Your task to perform on an android device: Clear all items from cart on costco.com. Search for macbook pro 13 inch on costco.com, select the first entry, add it to the cart, then select checkout. Image 0: 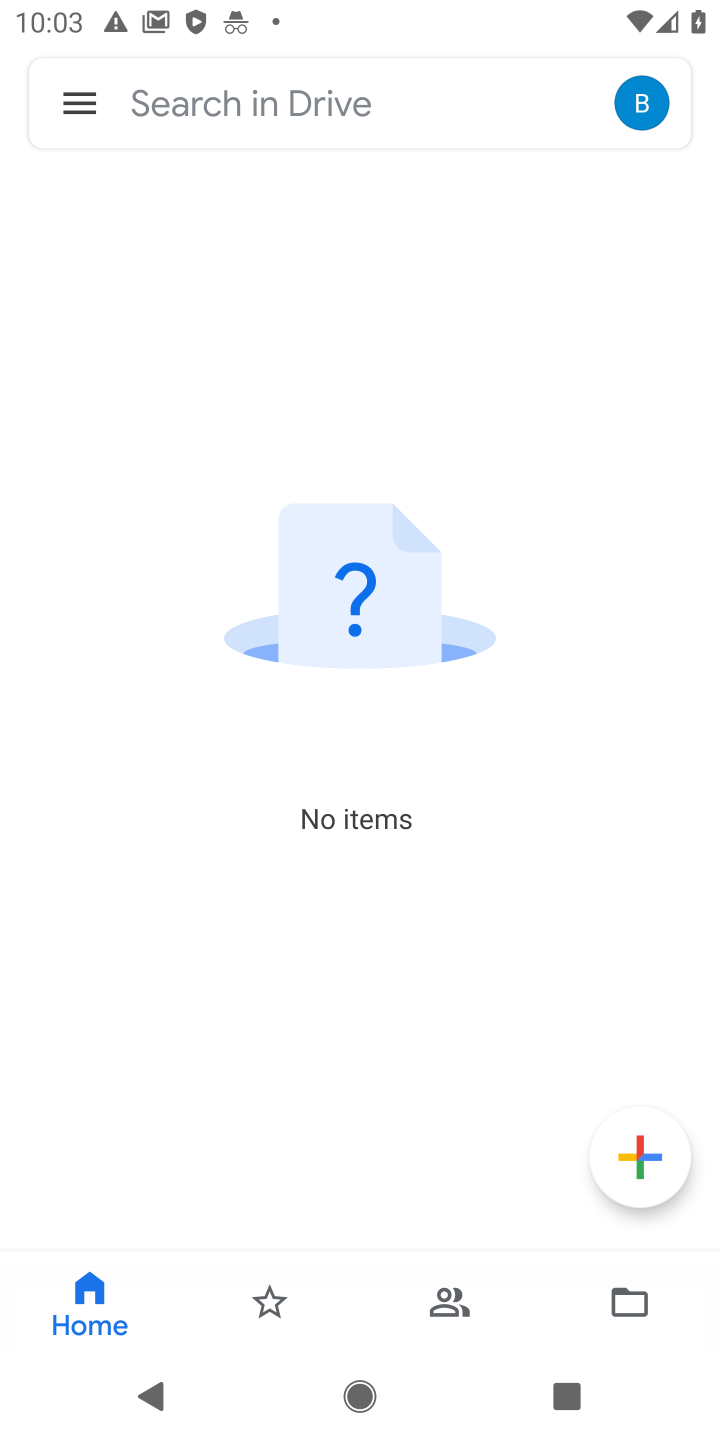
Step 0: press home button
Your task to perform on an android device: Clear all items from cart on costco.com. Search for macbook pro 13 inch on costco.com, select the first entry, add it to the cart, then select checkout. Image 1: 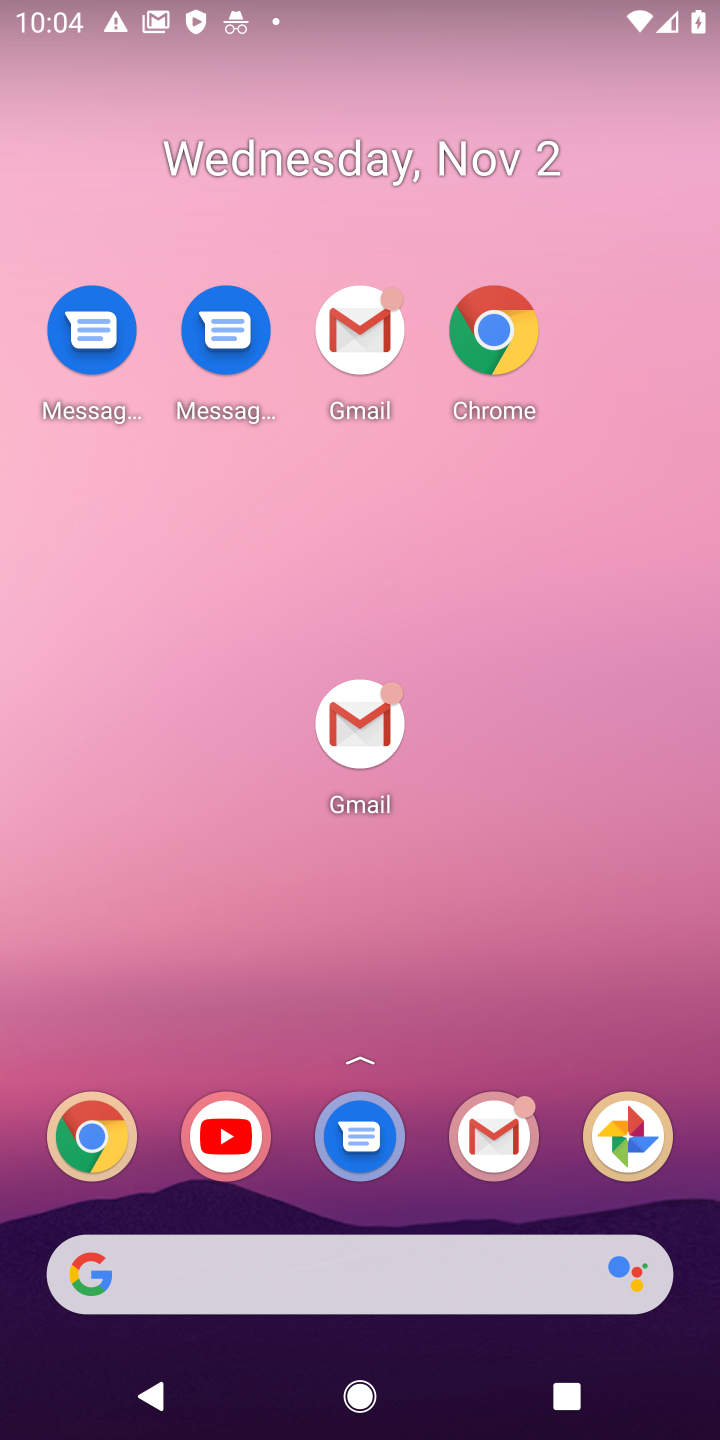
Step 1: drag from (200, 1280) to (230, 344)
Your task to perform on an android device: Clear all items from cart on costco.com. Search for macbook pro 13 inch on costco.com, select the first entry, add it to the cart, then select checkout. Image 2: 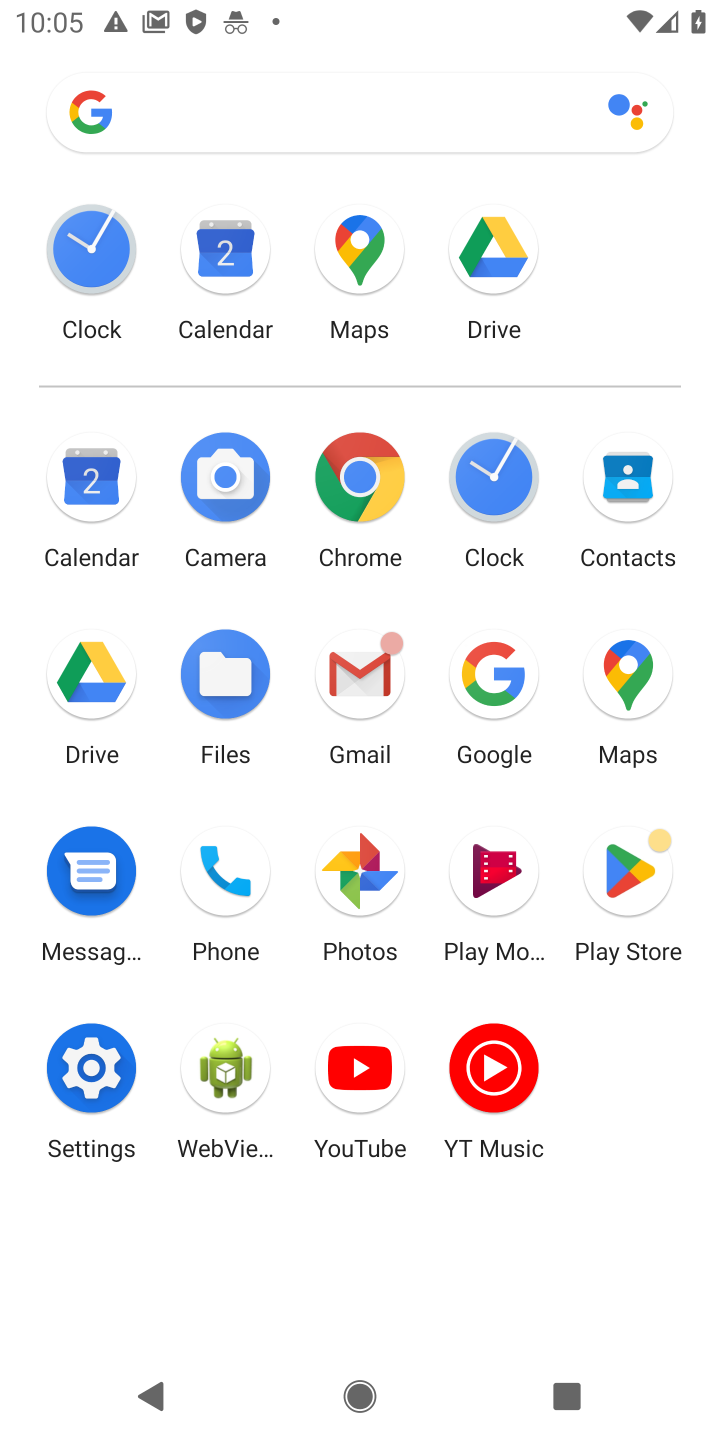
Step 2: click (476, 662)
Your task to perform on an android device: Clear all items from cart on costco.com. Search for macbook pro 13 inch on costco.com, select the first entry, add it to the cart, then select checkout. Image 3: 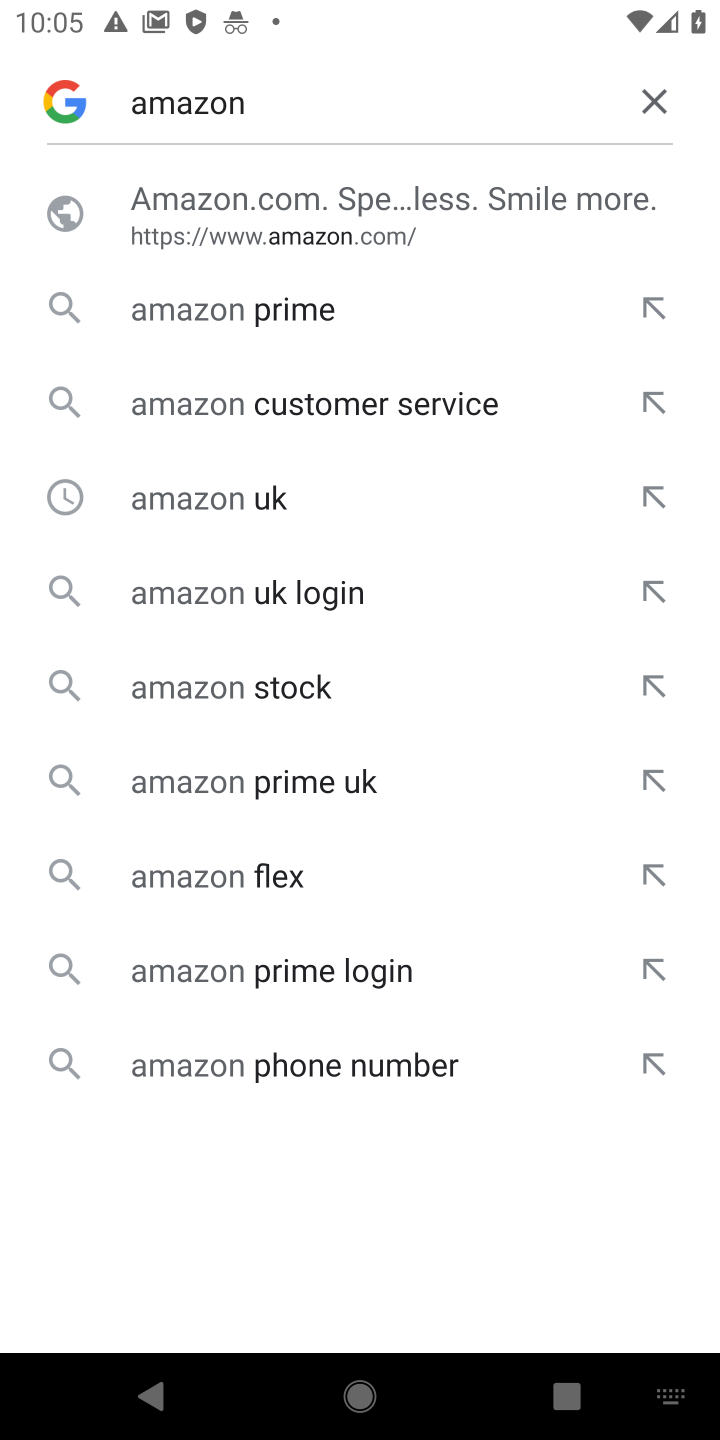
Step 3: click (651, 84)
Your task to perform on an android device: Clear all items from cart on costco.com. Search for macbook pro 13 inch on costco.com, select the first entry, add it to the cart, then select checkout. Image 4: 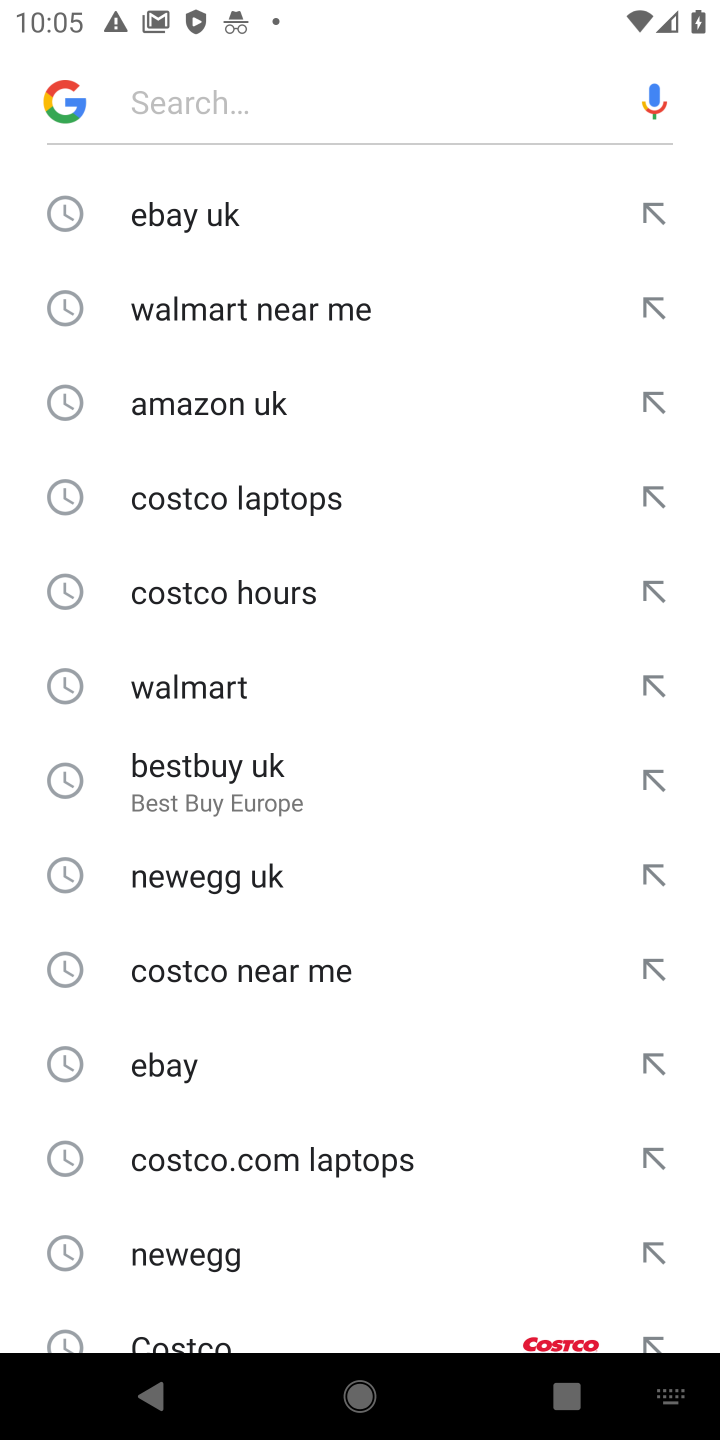
Step 4: click (256, 88)
Your task to perform on an android device: Clear all items from cart on costco.com. Search for macbook pro 13 inch on costco.com, select the first entry, add it to the cart, then select checkout. Image 5: 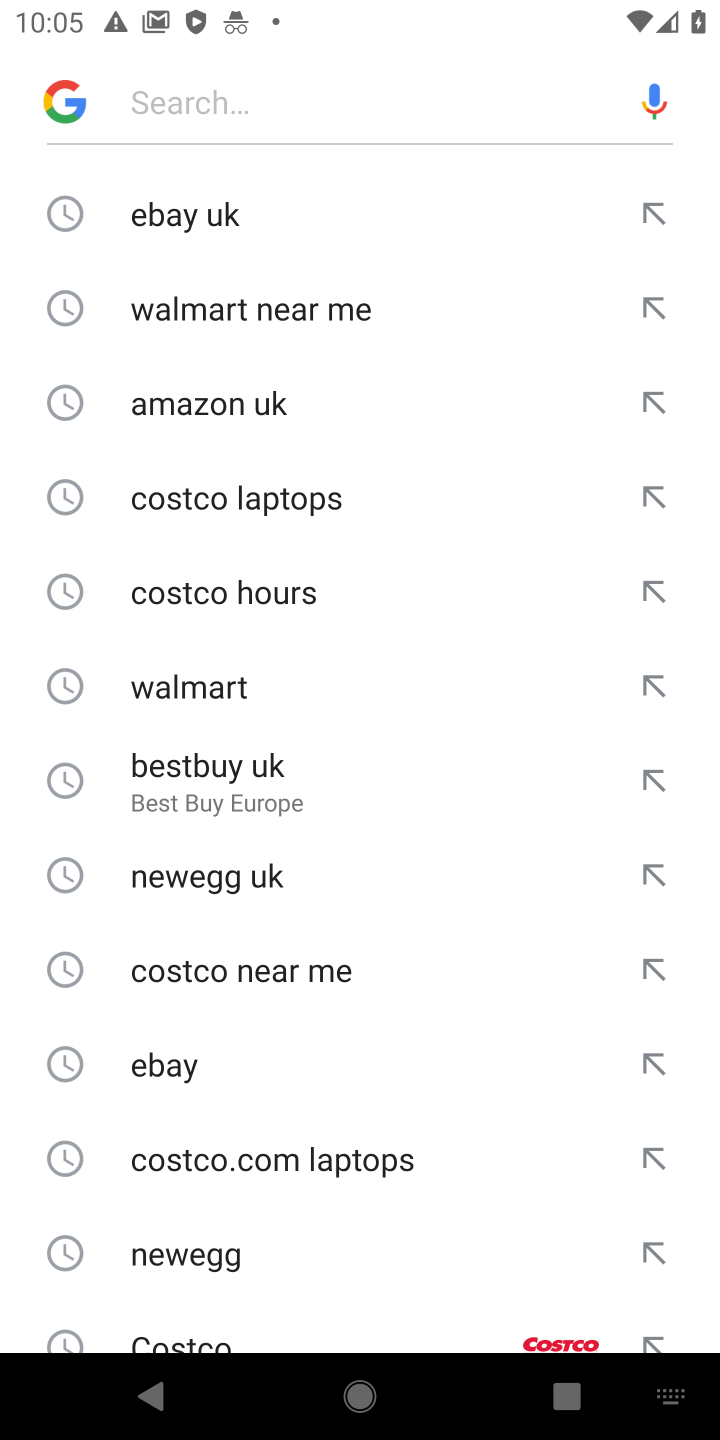
Step 5: type "costco "
Your task to perform on an android device: Clear all items from cart on costco.com. Search for macbook pro 13 inch on costco.com, select the first entry, add it to the cart, then select checkout. Image 6: 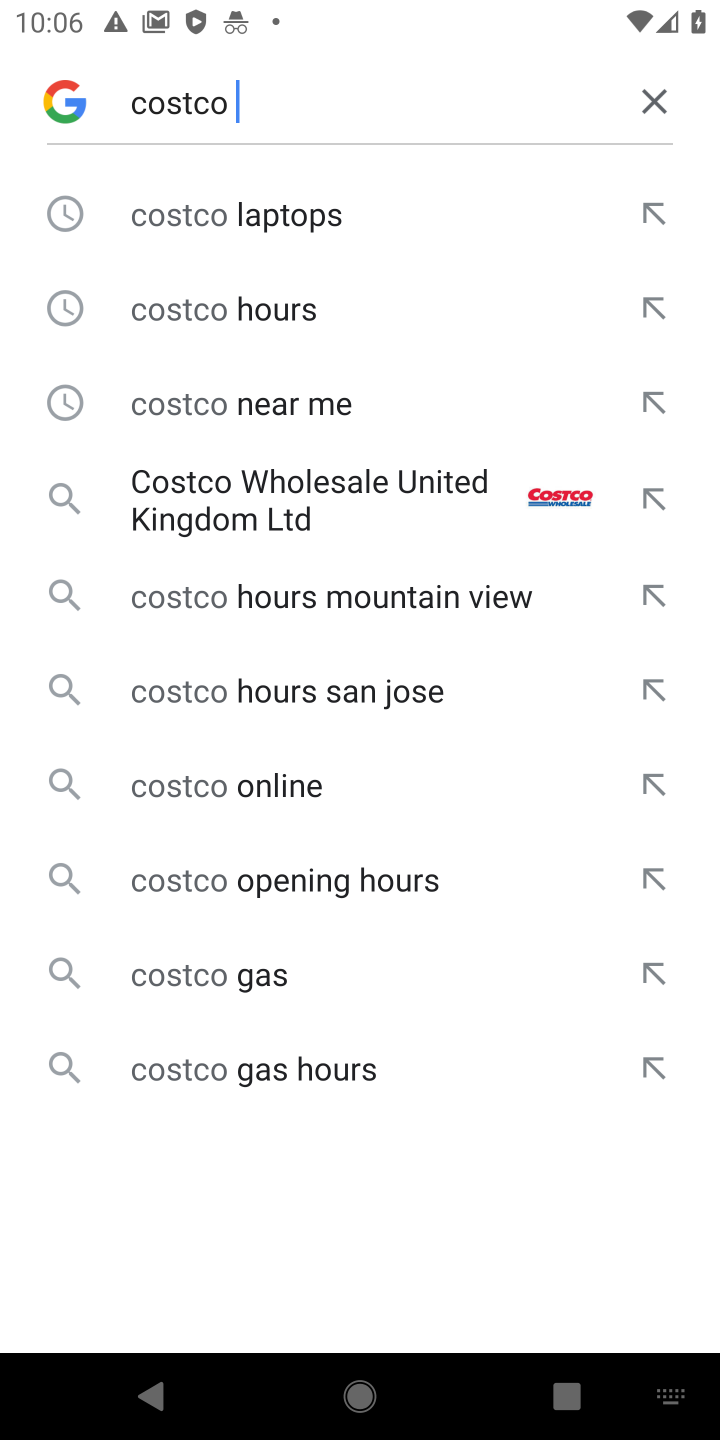
Step 6: click (281, 492)
Your task to perform on an android device: Clear all items from cart on costco.com. Search for macbook pro 13 inch on costco.com, select the first entry, add it to the cart, then select checkout. Image 7: 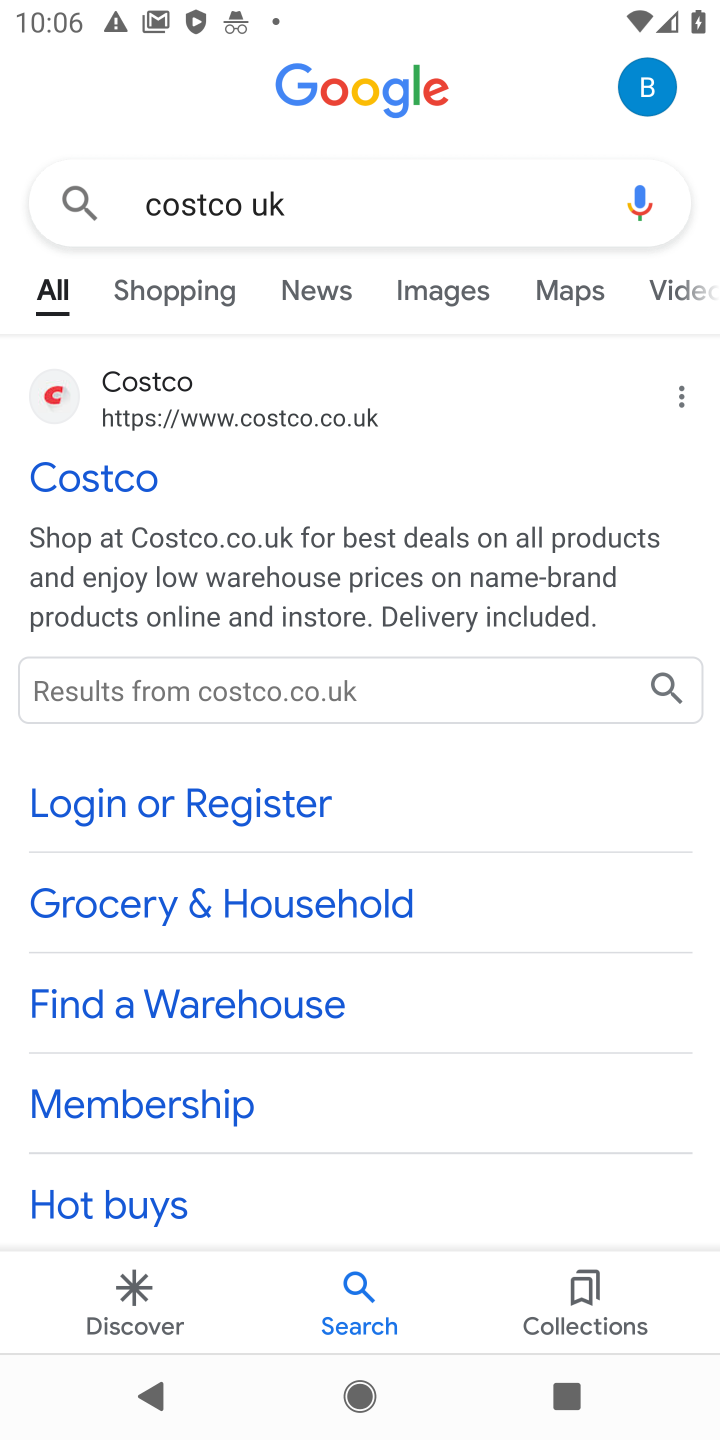
Step 7: click (59, 407)
Your task to perform on an android device: Clear all items from cart on costco.com. Search for macbook pro 13 inch on costco.com, select the first entry, add it to the cart, then select checkout. Image 8: 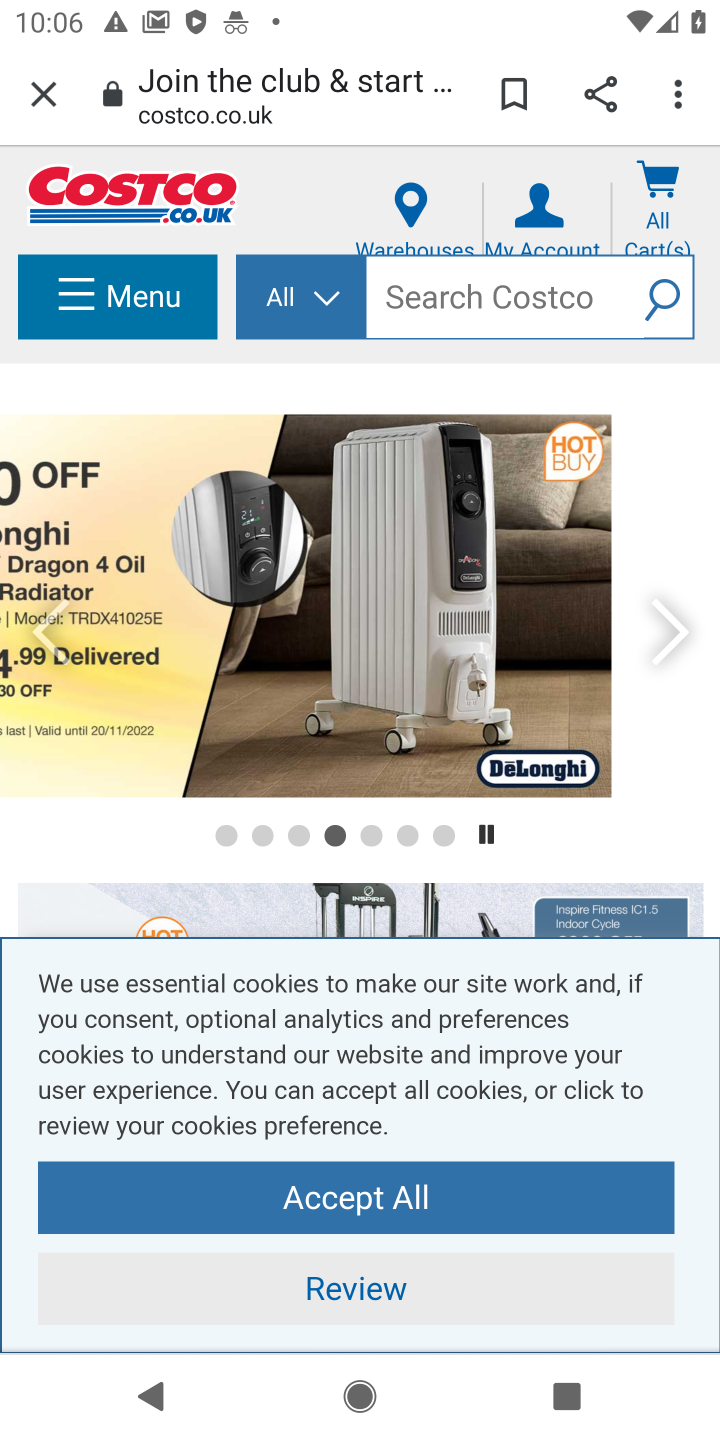
Step 8: click (484, 276)
Your task to perform on an android device: Clear all items from cart on costco.com. Search for macbook pro 13 inch on costco.com, select the first entry, add it to the cart, then select checkout. Image 9: 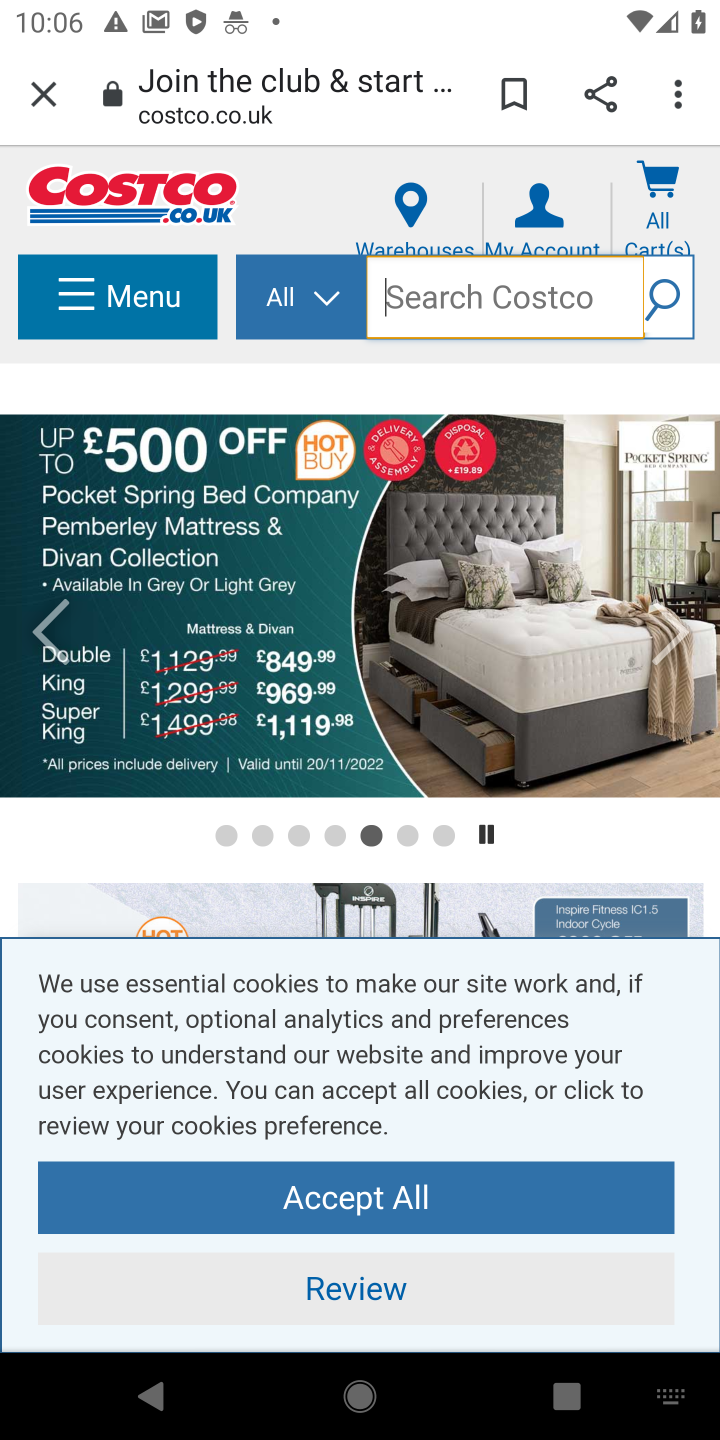
Step 9: click (390, 1197)
Your task to perform on an android device: Clear all items from cart on costco.com. Search for macbook pro 13 inch on costco.com, select the first entry, add it to the cart, then select checkout. Image 10: 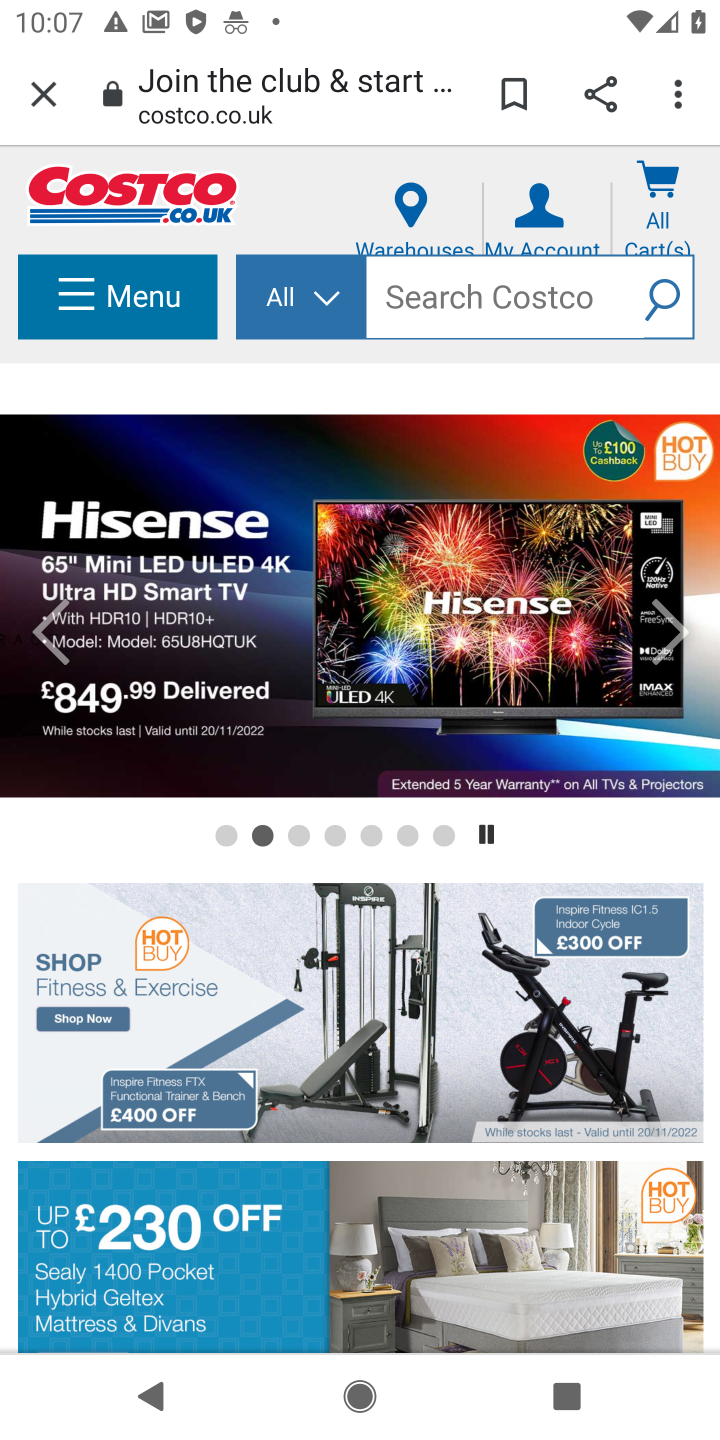
Step 10: click (430, 275)
Your task to perform on an android device: Clear all items from cart on costco.com. Search for macbook pro 13 inch on costco.com, select the first entry, add it to the cart, then select checkout. Image 11: 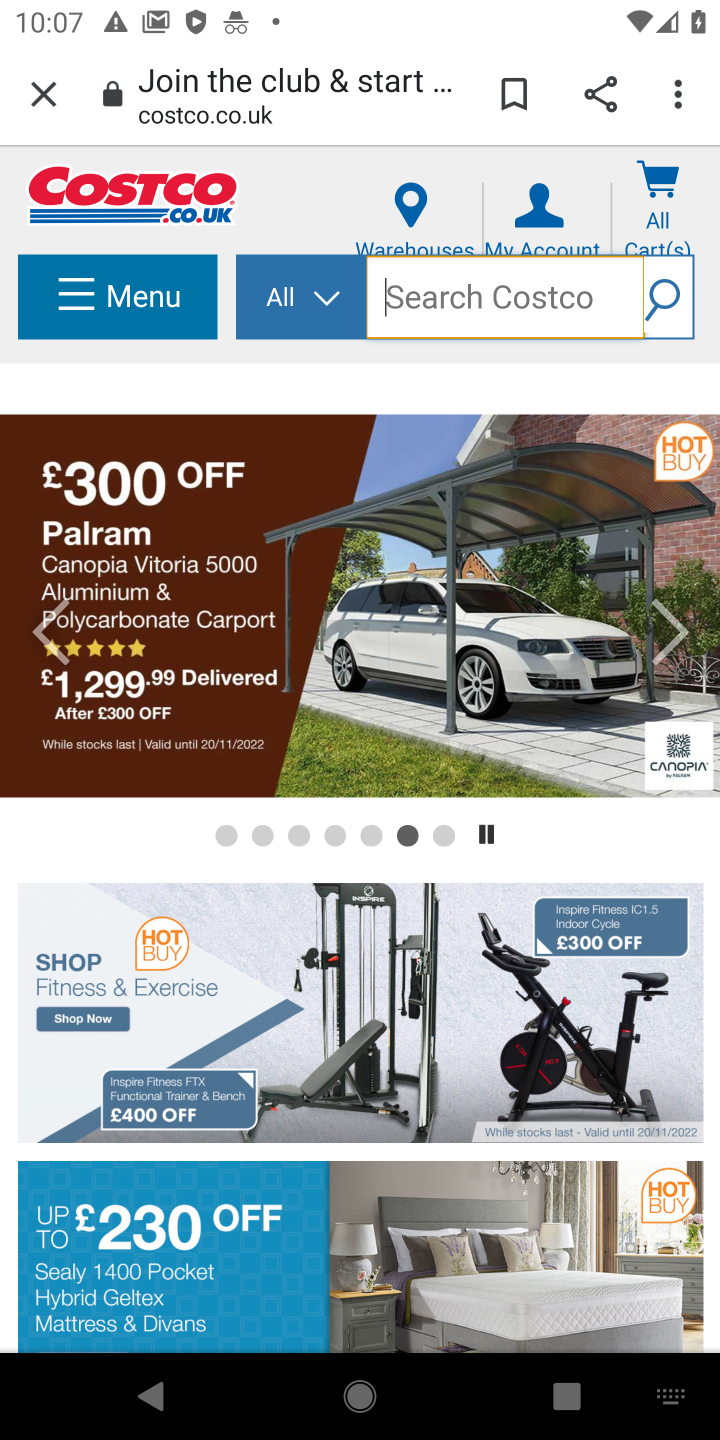
Step 11: click (478, 287)
Your task to perform on an android device: Clear all items from cart on costco.com. Search for macbook pro 13 inch on costco.com, select the first entry, add it to the cart, then select checkout. Image 12: 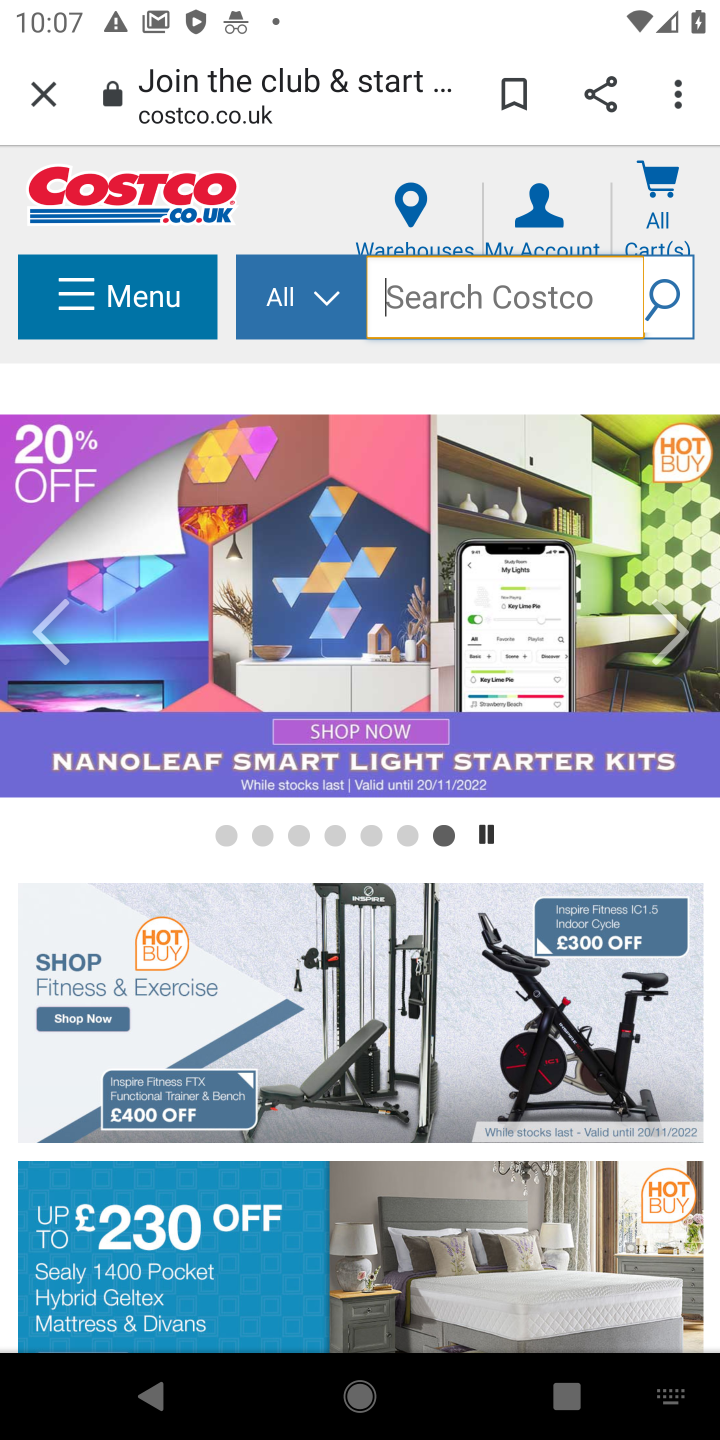
Step 12: type " macbook pro 13 inch  "
Your task to perform on an android device: Clear all items from cart on costco.com. Search for macbook pro 13 inch on costco.com, select the first entry, add it to the cart, then select checkout. Image 13: 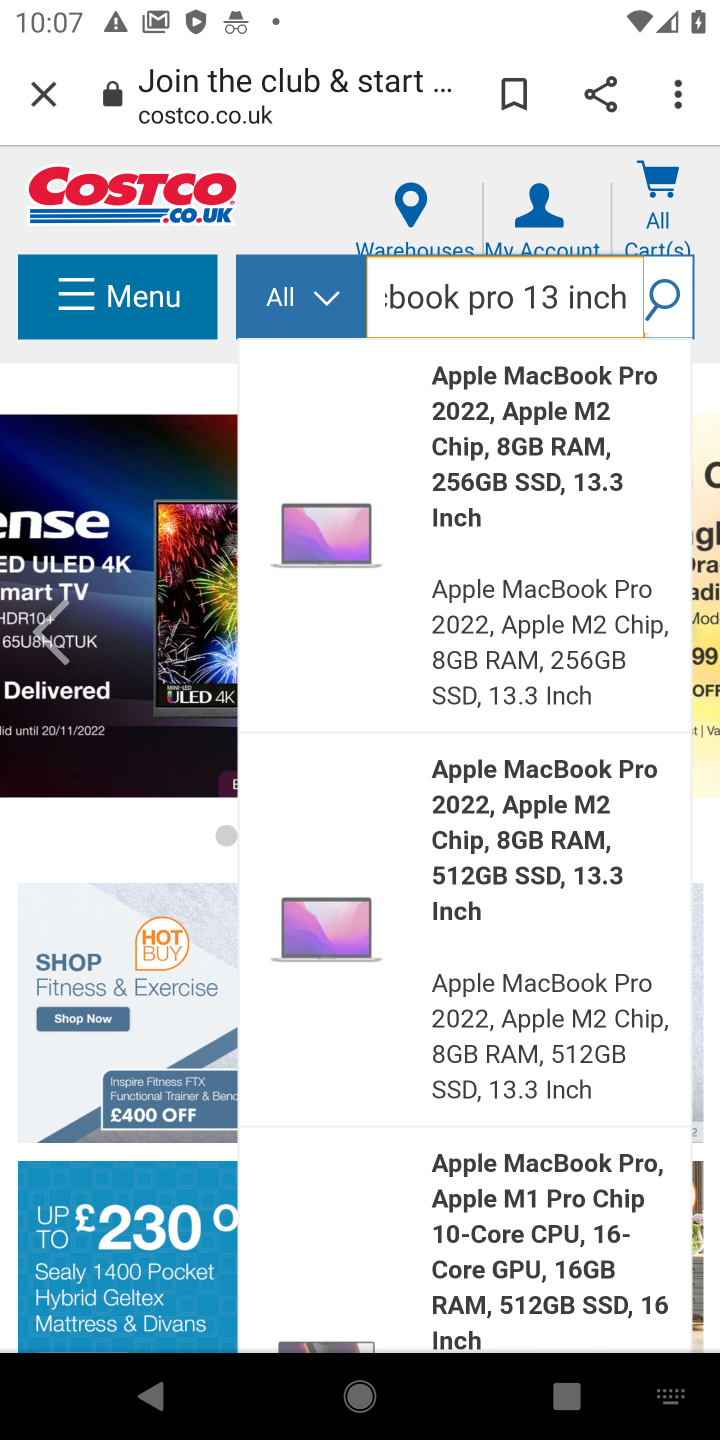
Step 13: click (505, 447)
Your task to perform on an android device: Clear all items from cart on costco.com. Search for macbook pro 13 inch on costco.com, select the first entry, add it to the cart, then select checkout. Image 14: 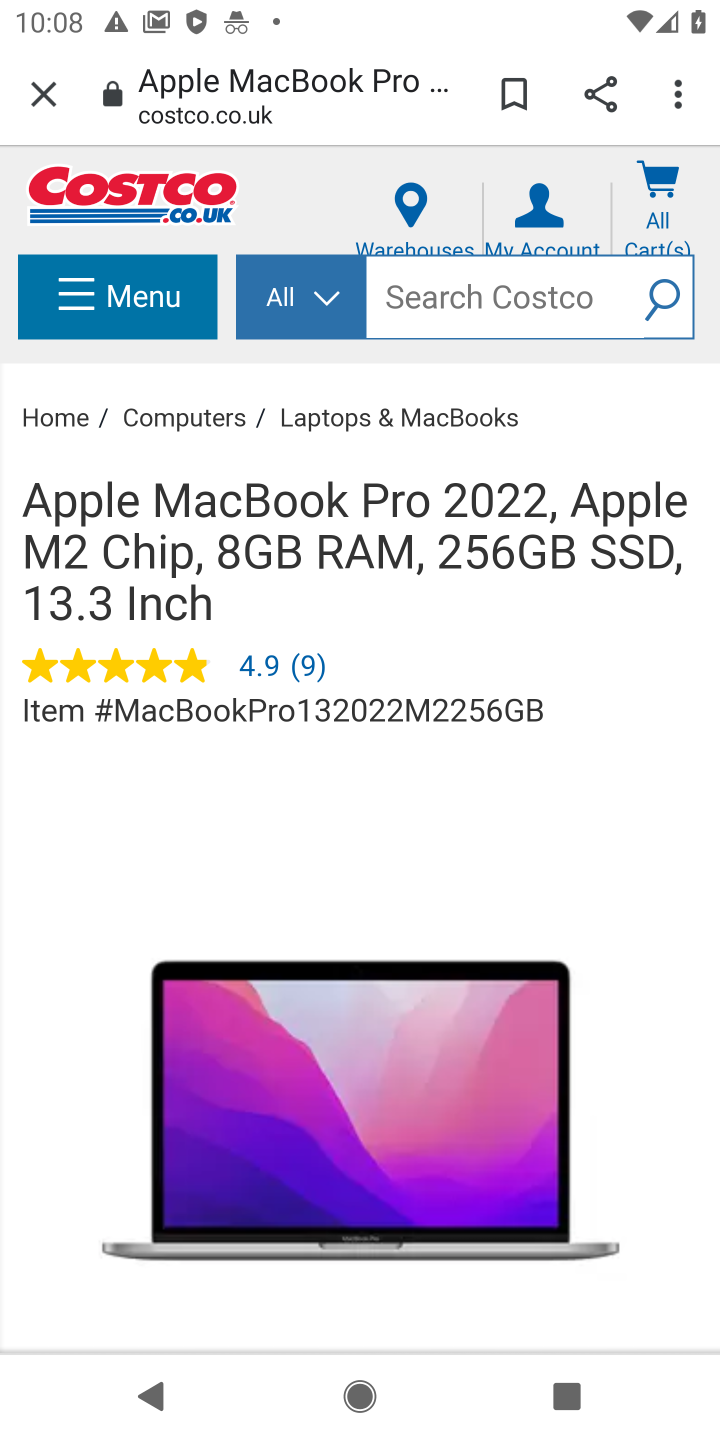
Step 14: drag from (338, 1133) to (388, 656)
Your task to perform on an android device: Clear all items from cart on costco.com. Search for macbook pro 13 inch on costco.com, select the first entry, add it to the cart, then select checkout. Image 15: 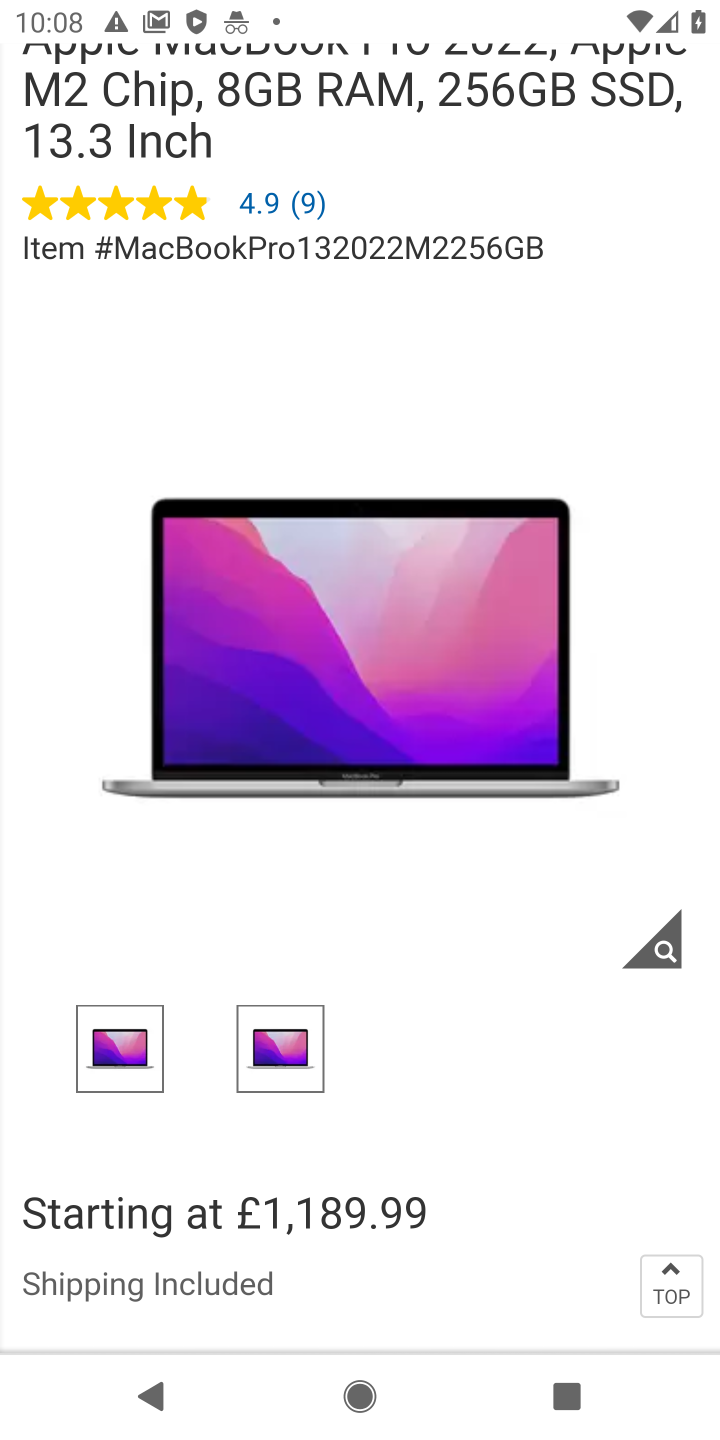
Step 15: drag from (412, 876) to (434, 396)
Your task to perform on an android device: Clear all items from cart on costco.com. Search for macbook pro 13 inch on costco.com, select the first entry, add it to the cart, then select checkout. Image 16: 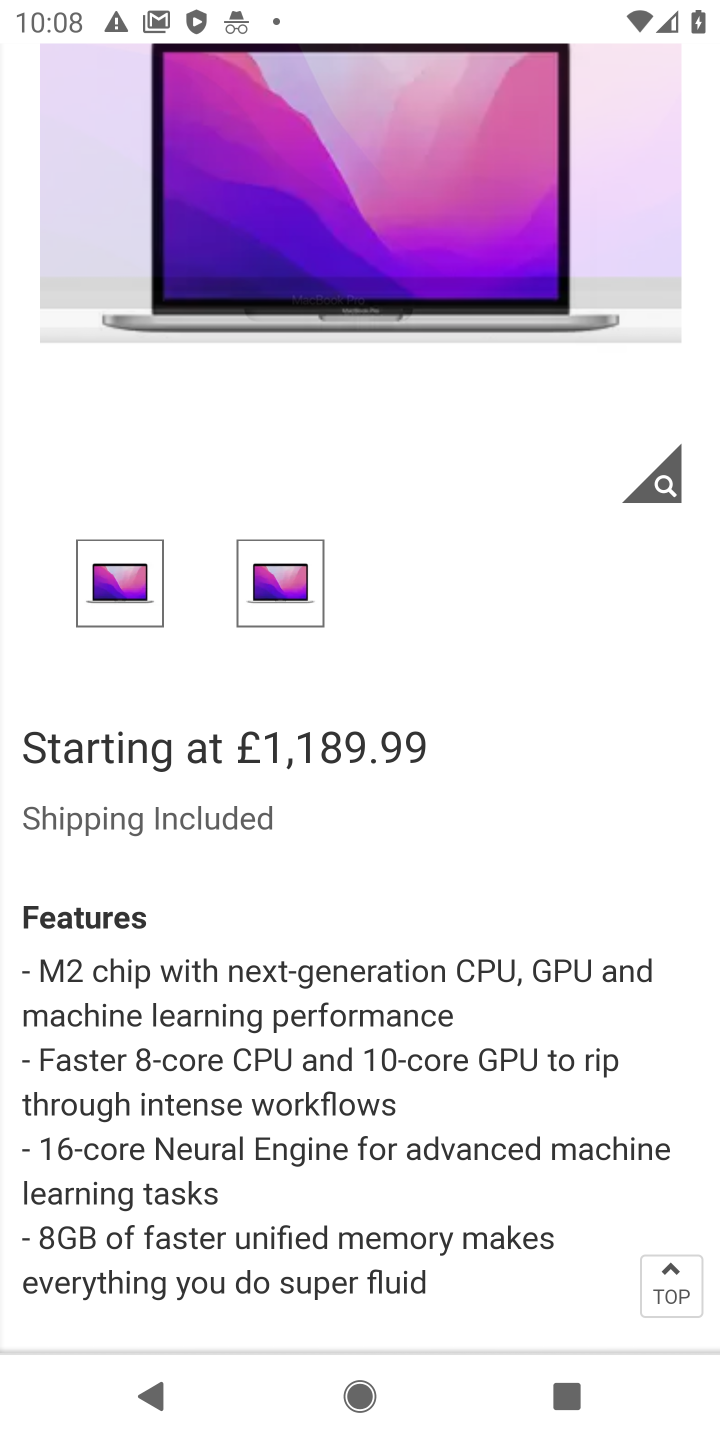
Step 16: drag from (369, 1033) to (455, 272)
Your task to perform on an android device: Clear all items from cart on costco.com. Search for macbook pro 13 inch on costco.com, select the first entry, add it to the cart, then select checkout. Image 17: 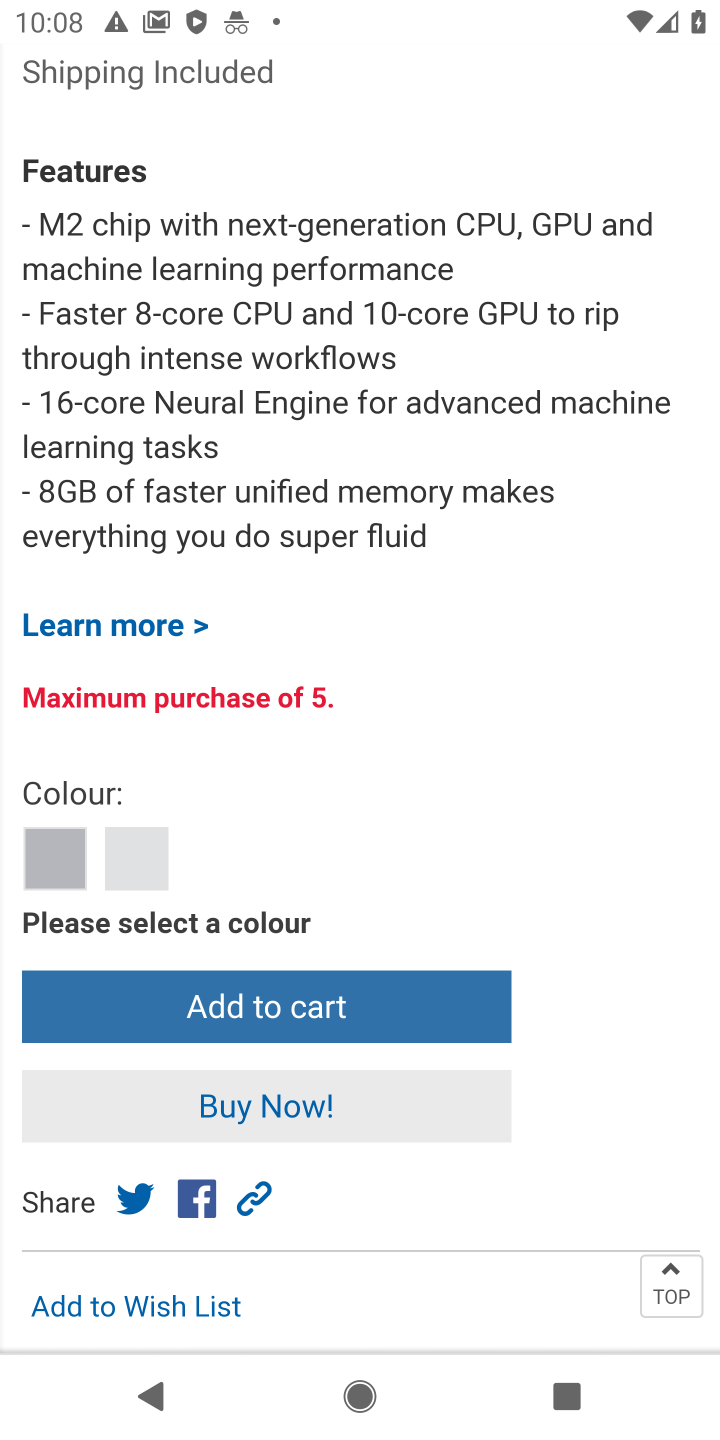
Step 17: drag from (298, 1100) to (392, 527)
Your task to perform on an android device: Clear all items from cart on costco.com. Search for macbook pro 13 inch on costco.com, select the first entry, add it to the cart, then select checkout. Image 18: 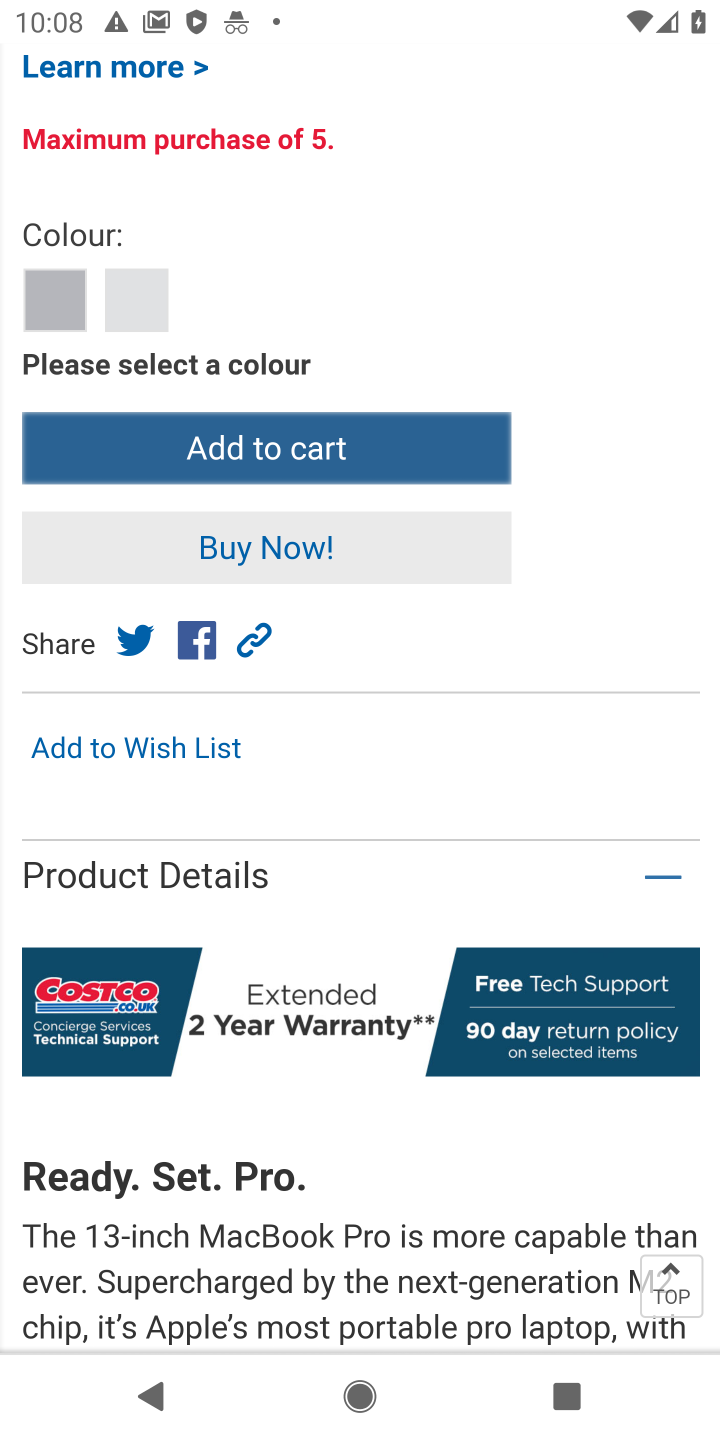
Step 18: click (272, 442)
Your task to perform on an android device: Clear all items from cart on costco.com. Search for macbook pro 13 inch on costco.com, select the first entry, add it to the cart, then select checkout. Image 19: 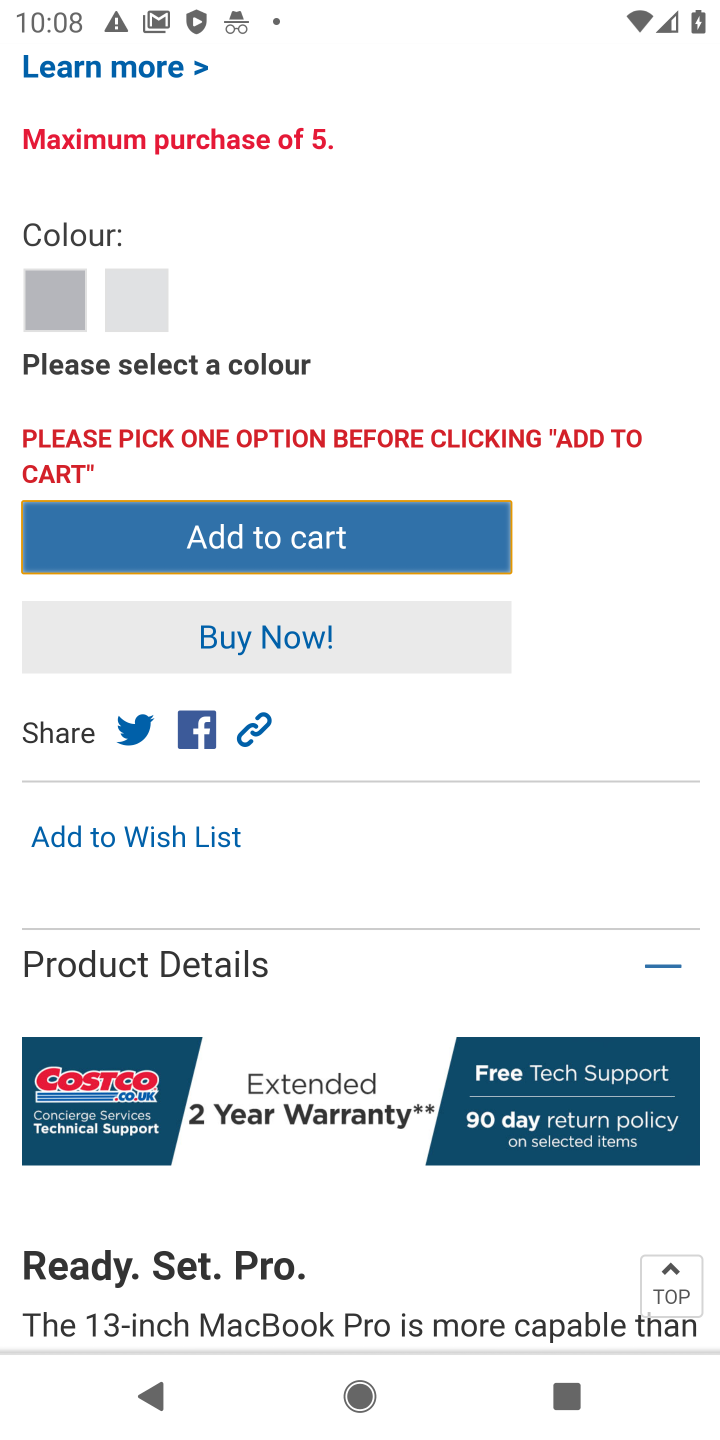
Step 19: click (162, 497)
Your task to perform on an android device: Clear all items from cart on costco.com. Search for macbook pro 13 inch on costco.com, select the first entry, add it to the cart, then select checkout. Image 20: 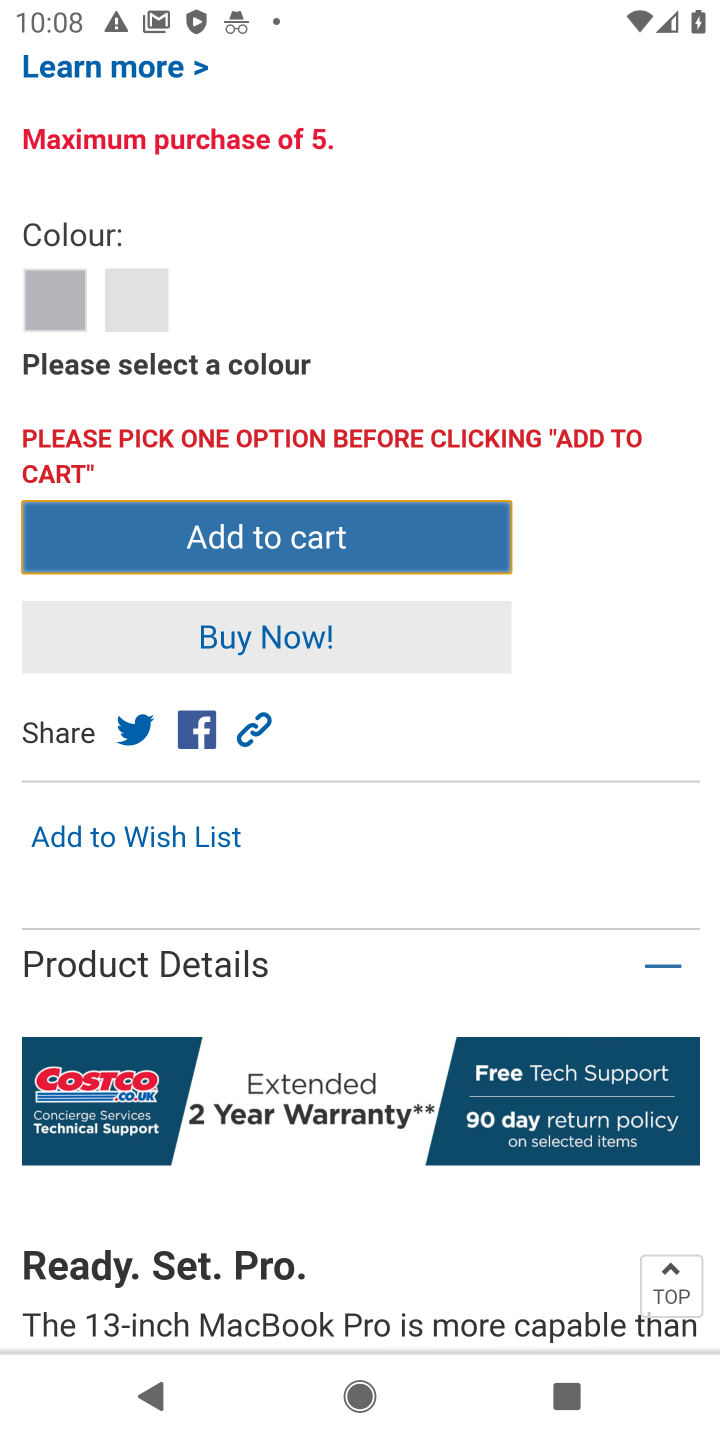
Step 20: click (184, 545)
Your task to perform on an android device: Clear all items from cart on costco.com. Search for macbook pro 13 inch on costco.com, select the first entry, add it to the cart, then select checkout. Image 21: 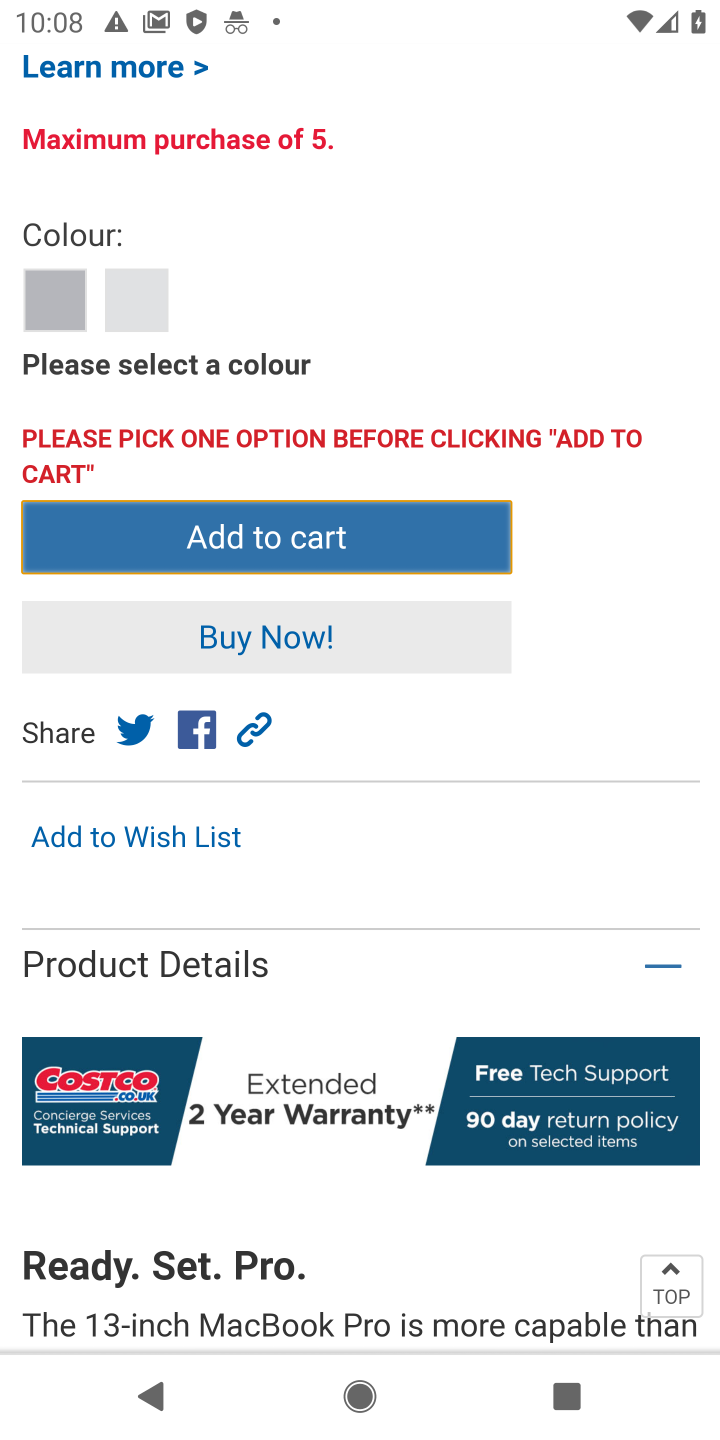
Step 21: click (242, 509)
Your task to perform on an android device: Clear all items from cart on costco.com. Search for macbook pro 13 inch on costco.com, select the first entry, add it to the cart, then select checkout. Image 22: 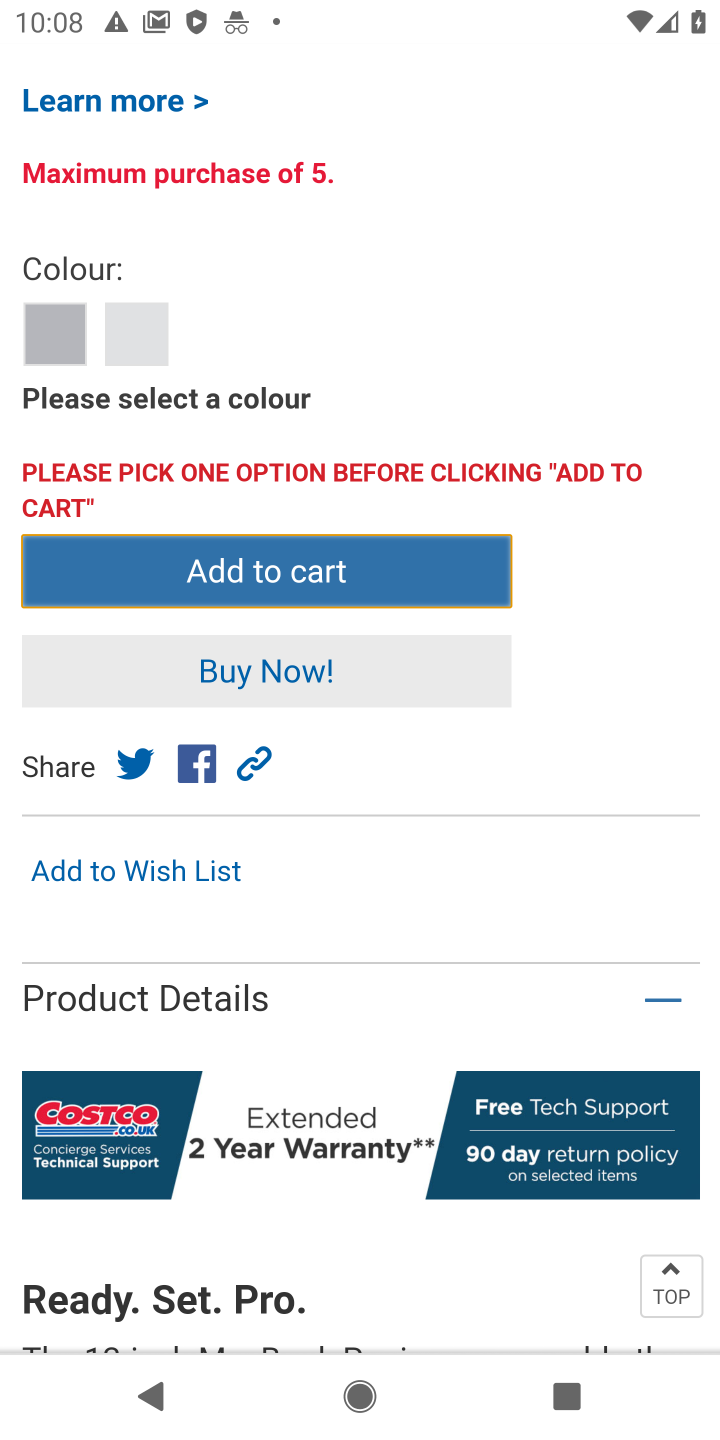
Step 22: drag from (416, 395) to (409, 668)
Your task to perform on an android device: Clear all items from cart on costco.com. Search for macbook pro 13 inch on costco.com, select the first entry, add it to the cart, then select checkout. Image 23: 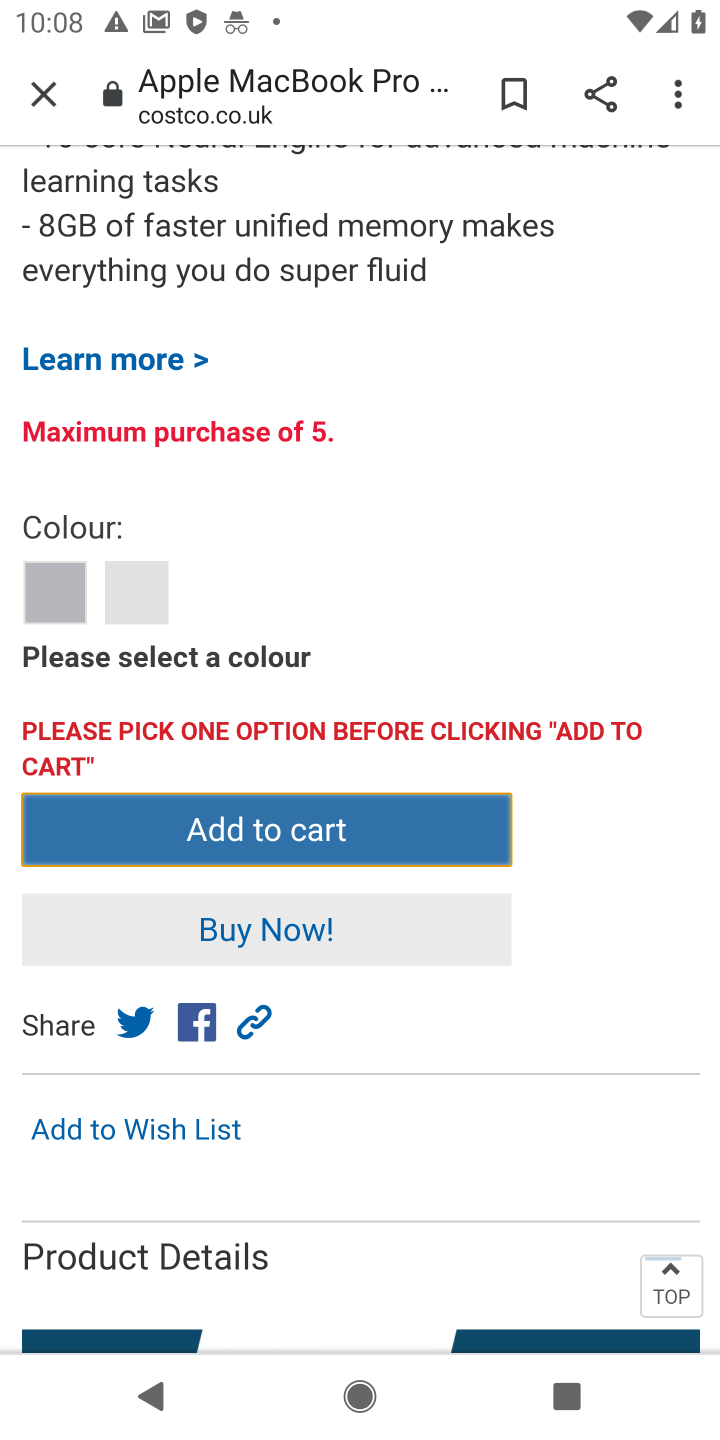
Step 23: click (268, 819)
Your task to perform on an android device: Clear all items from cart on costco.com. Search for macbook pro 13 inch on costco.com, select the first entry, add it to the cart, then select checkout. Image 24: 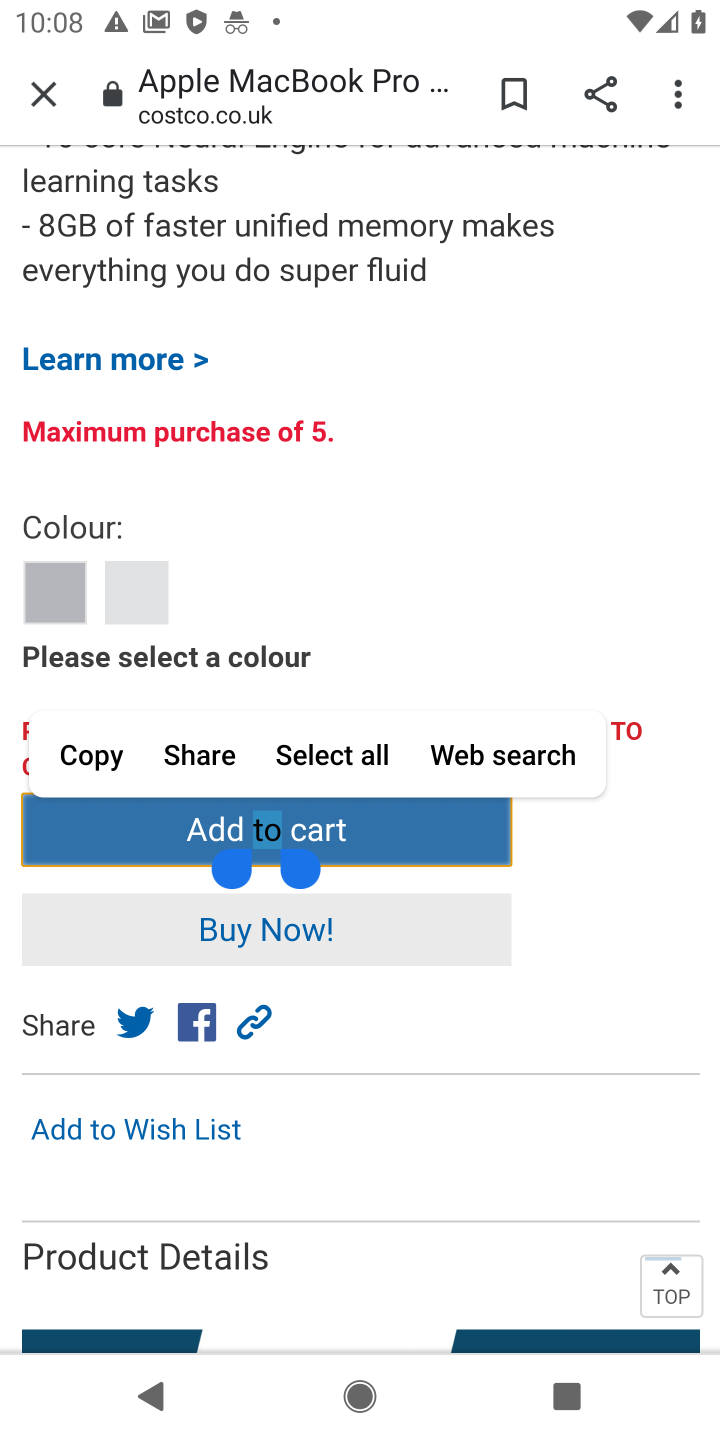
Step 24: click (268, 819)
Your task to perform on an android device: Clear all items from cart on costco.com. Search for macbook pro 13 inch on costco.com, select the first entry, add it to the cart, then select checkout. Image 25: 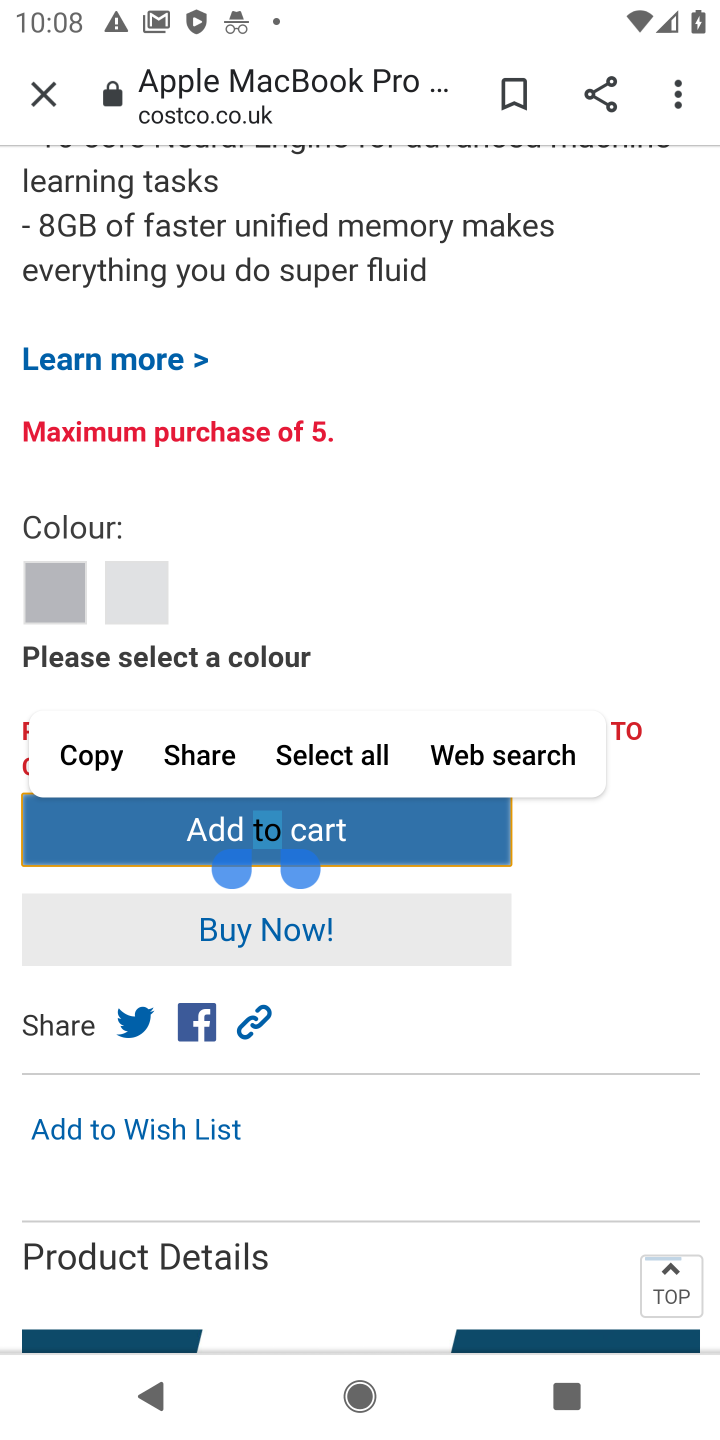
Step 25: click (433, 836)
Your task to perform on an android device: Clear all items from cart on costco.com. Search for macbook pro 13 inch on costco.com, select the first entry, add it to the cart, then select checkout. Image 26: 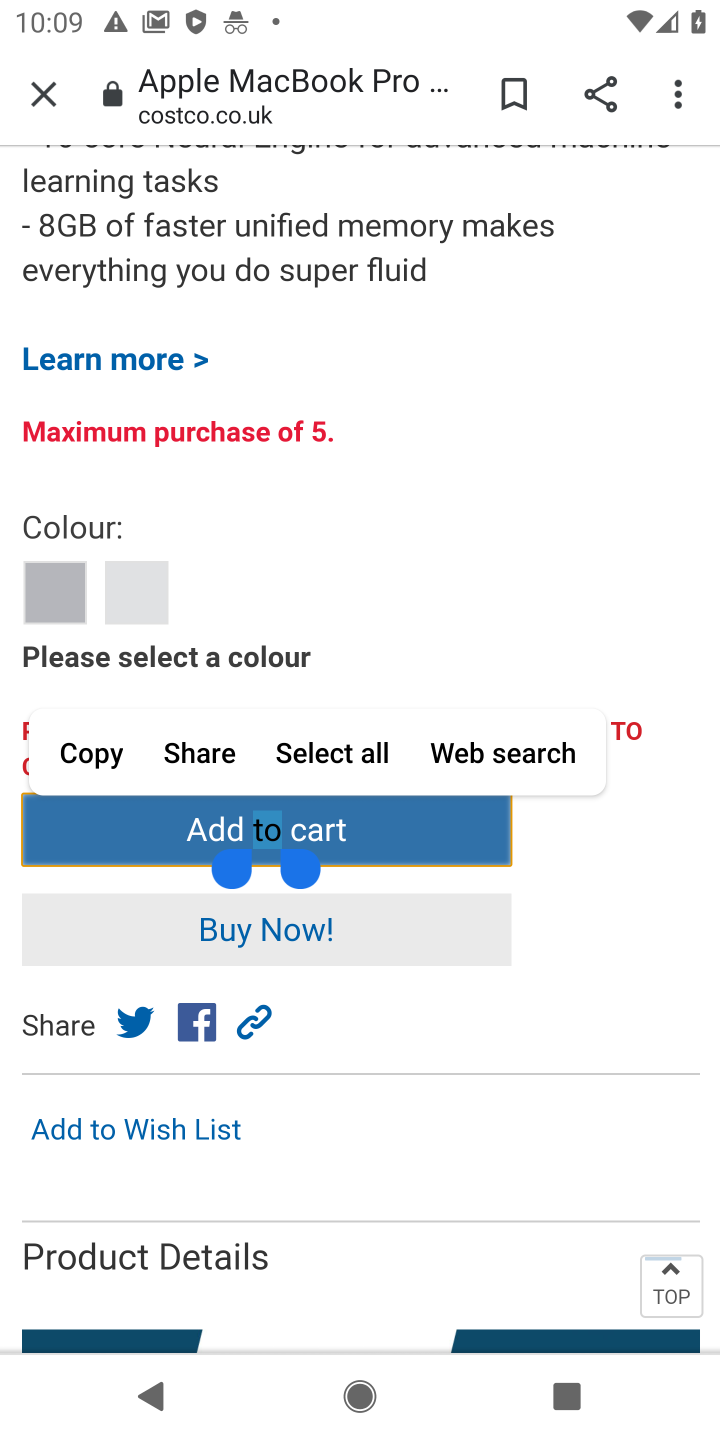
Step 26: click (433, 836)
Your task to perform on an android device: Clear all items from cart on costco.com. Search for macbook pro 13 inch on costco.com, select the first entry, add it to the cart, then select checkout. Image 27: 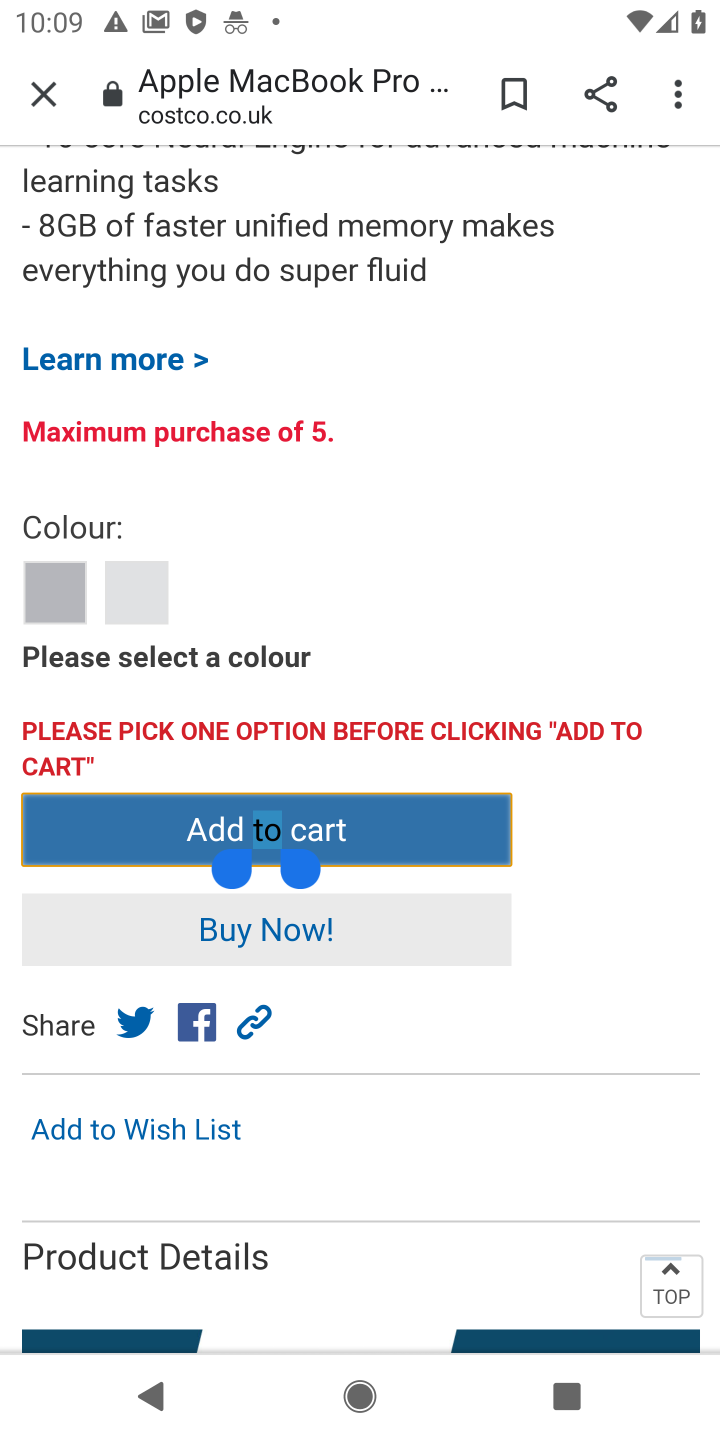
Step 27: drag from (438, 341) to (446, 744)
Your task to perform on an android device: Clear all items from cart on costco.com. Search for macbook pro 13 inch on costco.com, select the first entry, add it to the cart, then select checkout. Image 28: 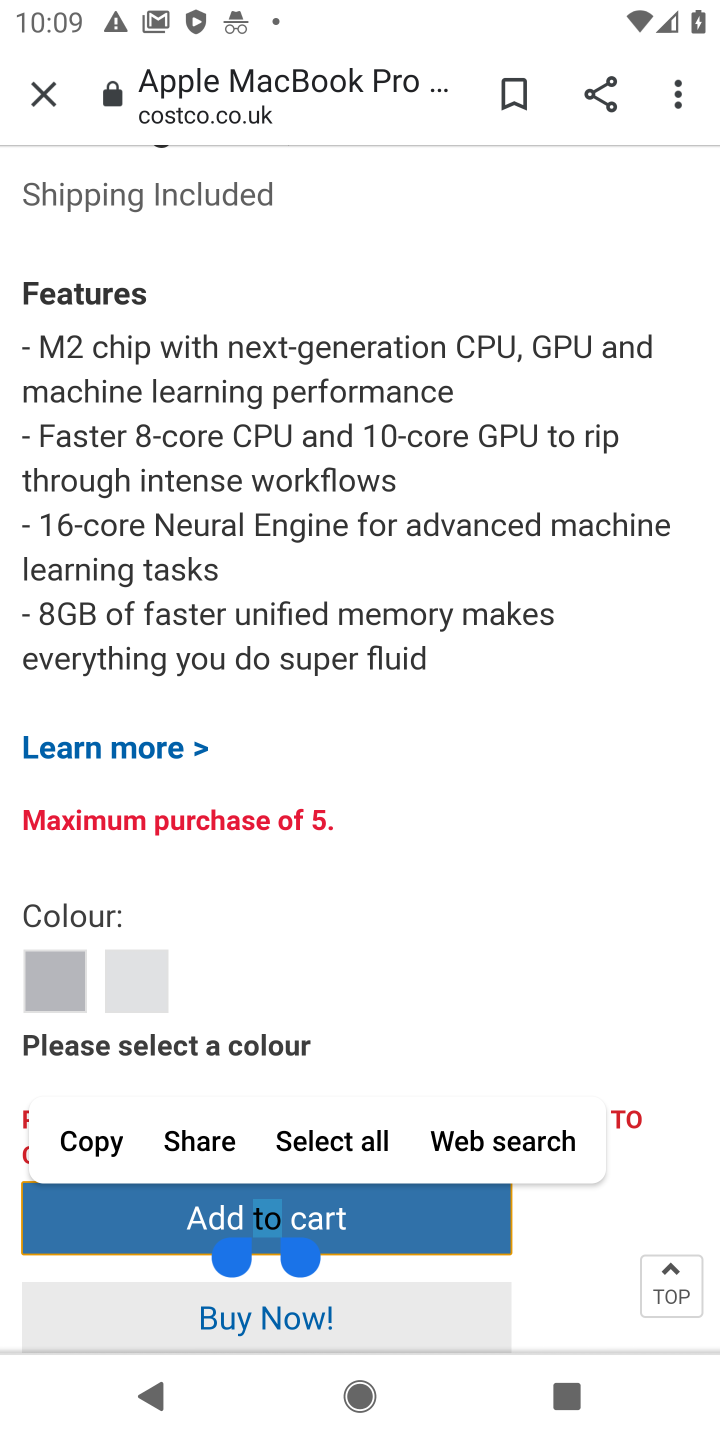
Step 28: click (463, 969)
Your task to perform on an android device: Clear all items from cart on costco.com. Search for macbook pro 13 inch on costco.com, select the first entry, add it to the cart, then select checkout. Image 29: 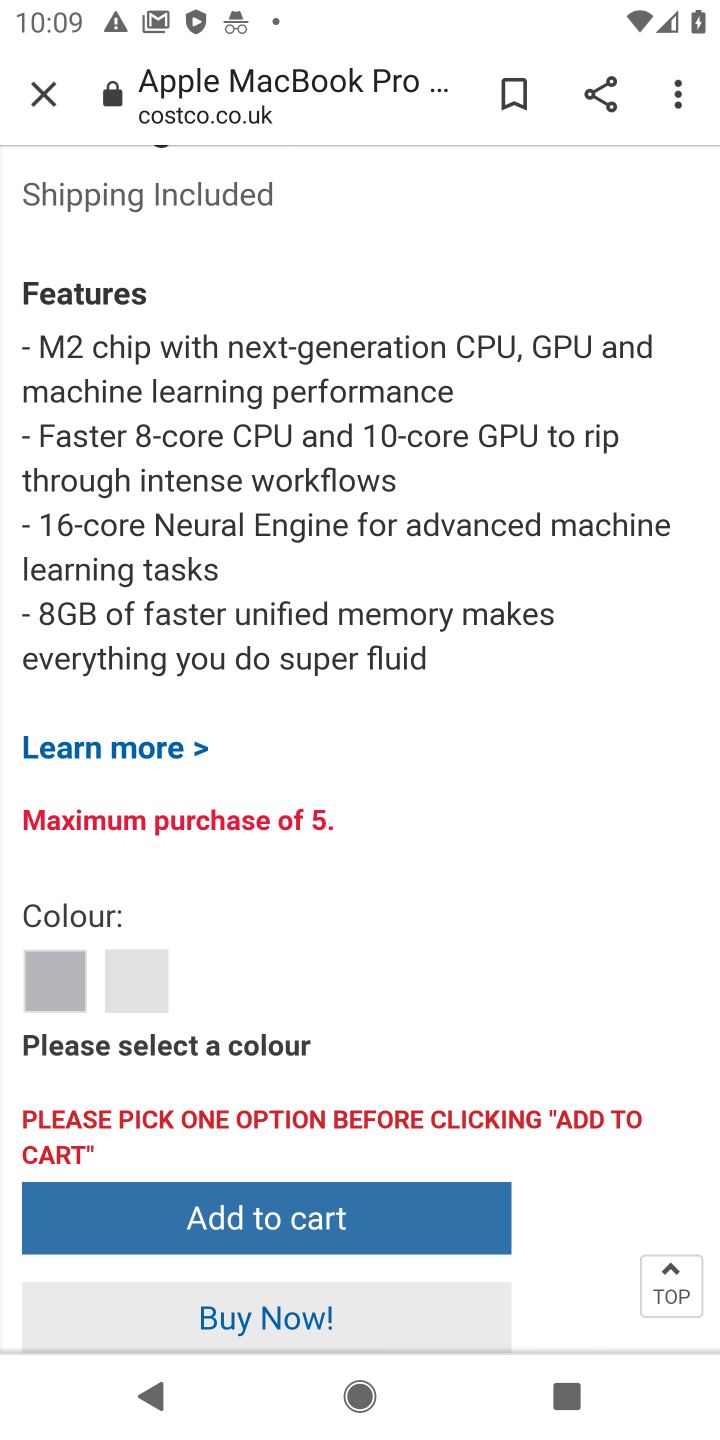
Step 29: click (463, 969)
Your task to perform on an android device: Clear all items from cart on costco.com. Search for macbook pro 13 inch on costco.com, select the first entry, add it to the cart, then select checkout. Image 30: 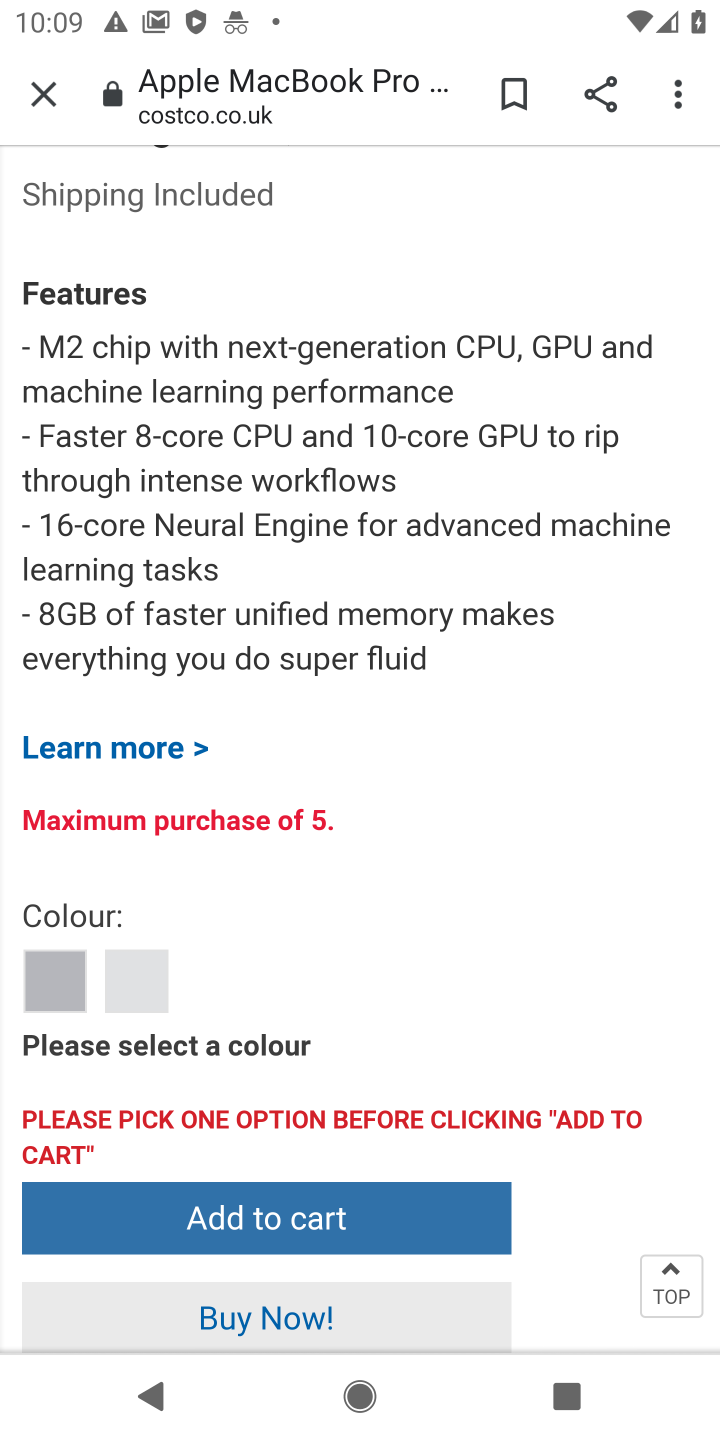
Step 30: click (381, 1215)
Your task to perform on an android device: Clear all items from cart on costco.com. Search for macbook pro 13 inch on costco.com, select the first entry, add it to the cart, then select checkout. Image 31: 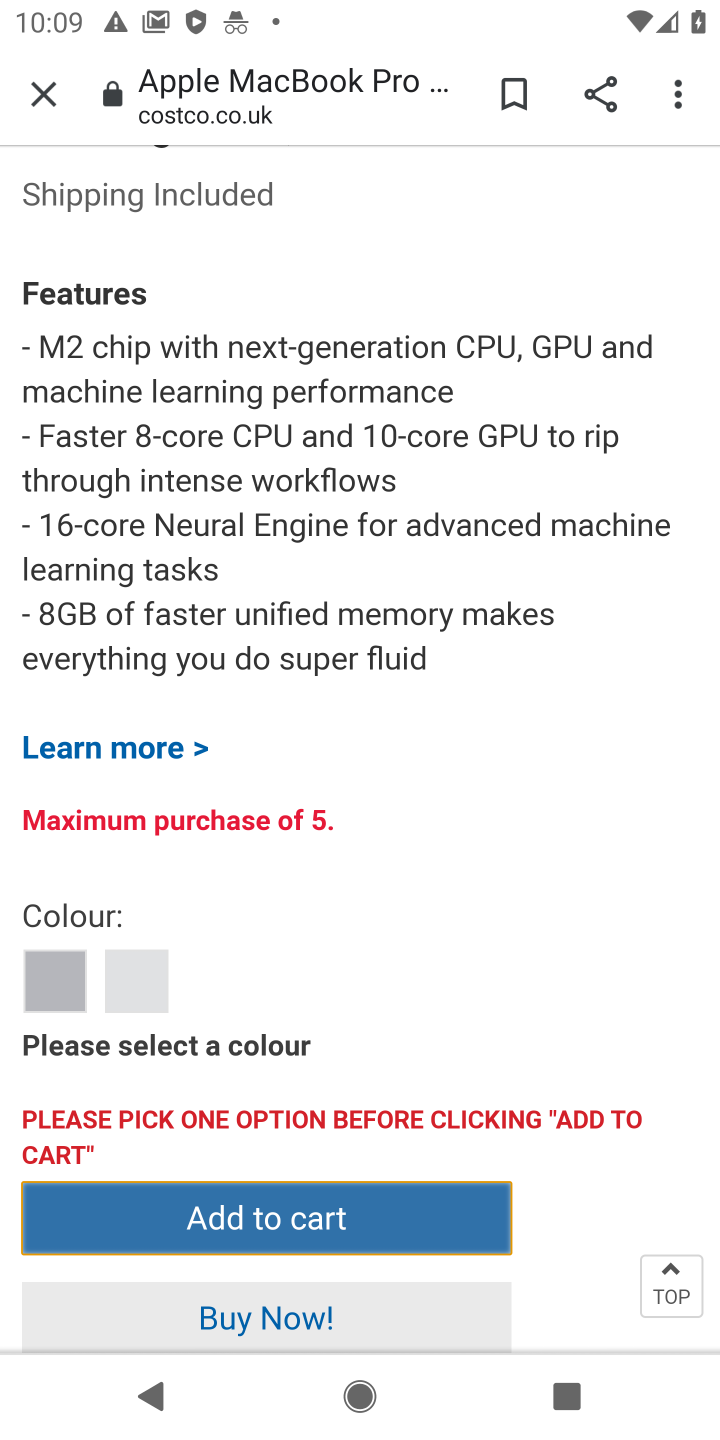
Step 31: click (381, 1215)
Your task to perform on an android device: Clear all items from cart on costco.com. Search for macbook pro 13 inch on costco.com, select the first entry, add it to the cart, then select checkout. Image 32: 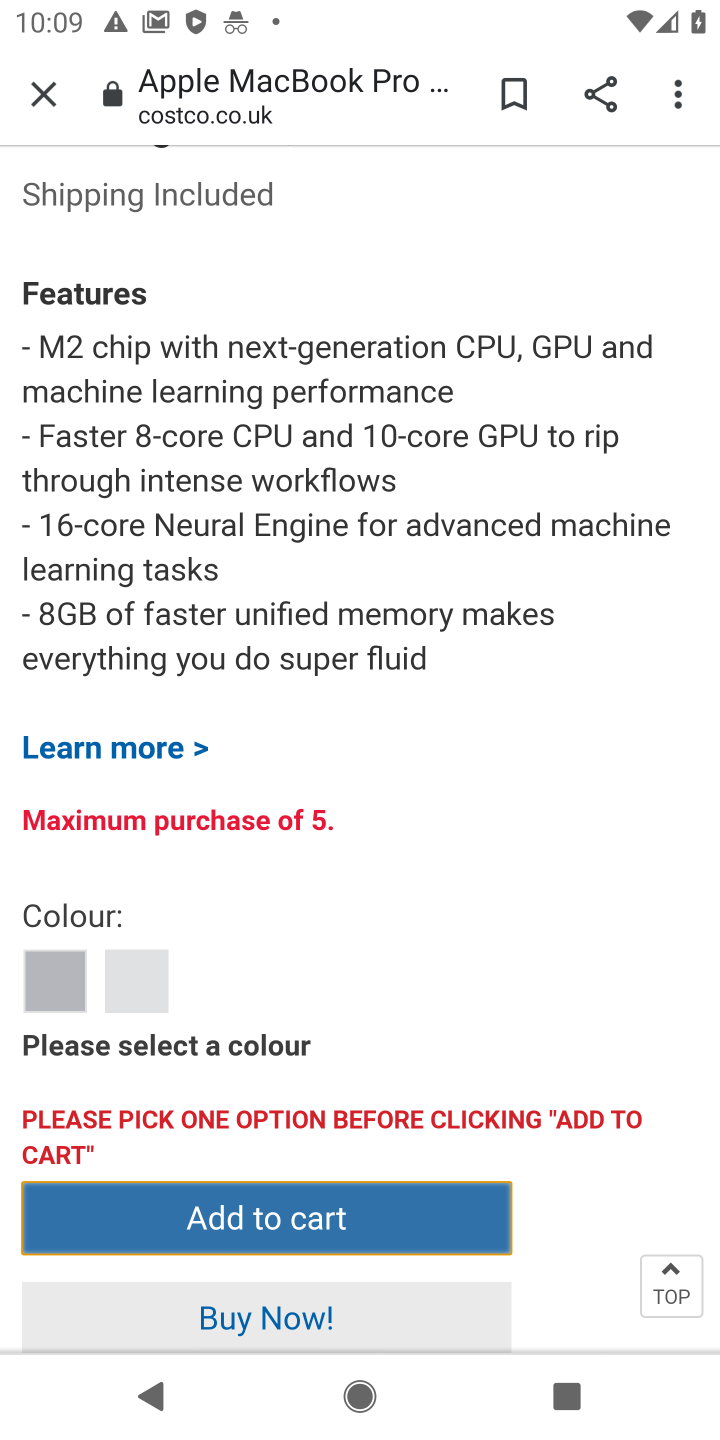
Step 32: click (381, 1215)
Your task to perform on an android device: Clear all items from cart on costco.com. Search for macbook pro 13 inch on costco.com, select the first entry, add it to the cart, then select checkout. Image 33: 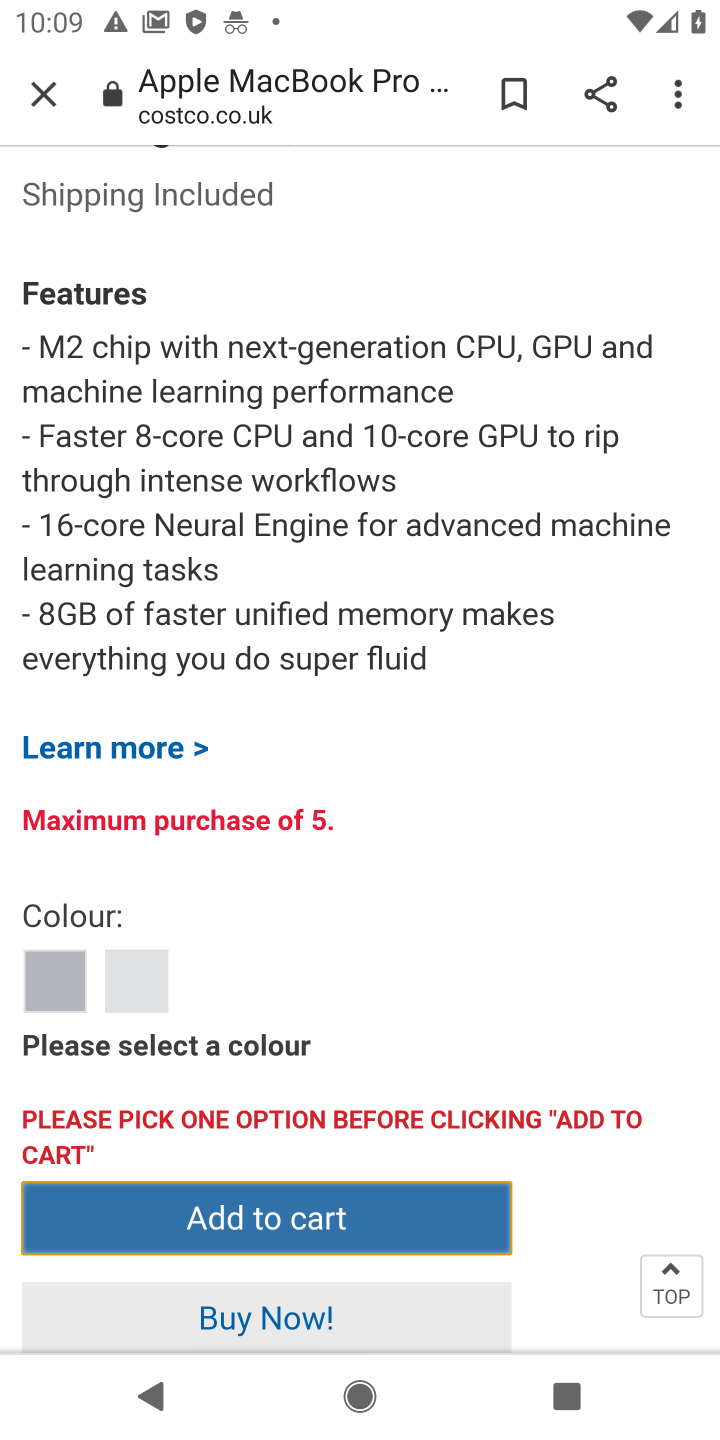
Step 33: click (265, 1217)
Your task to perform on an android device: Clear all items from cart on costco.com. Search for macbook pro 13 inch on costco.com, select the first entry, add it to the cart, then select checkout. Image 34: 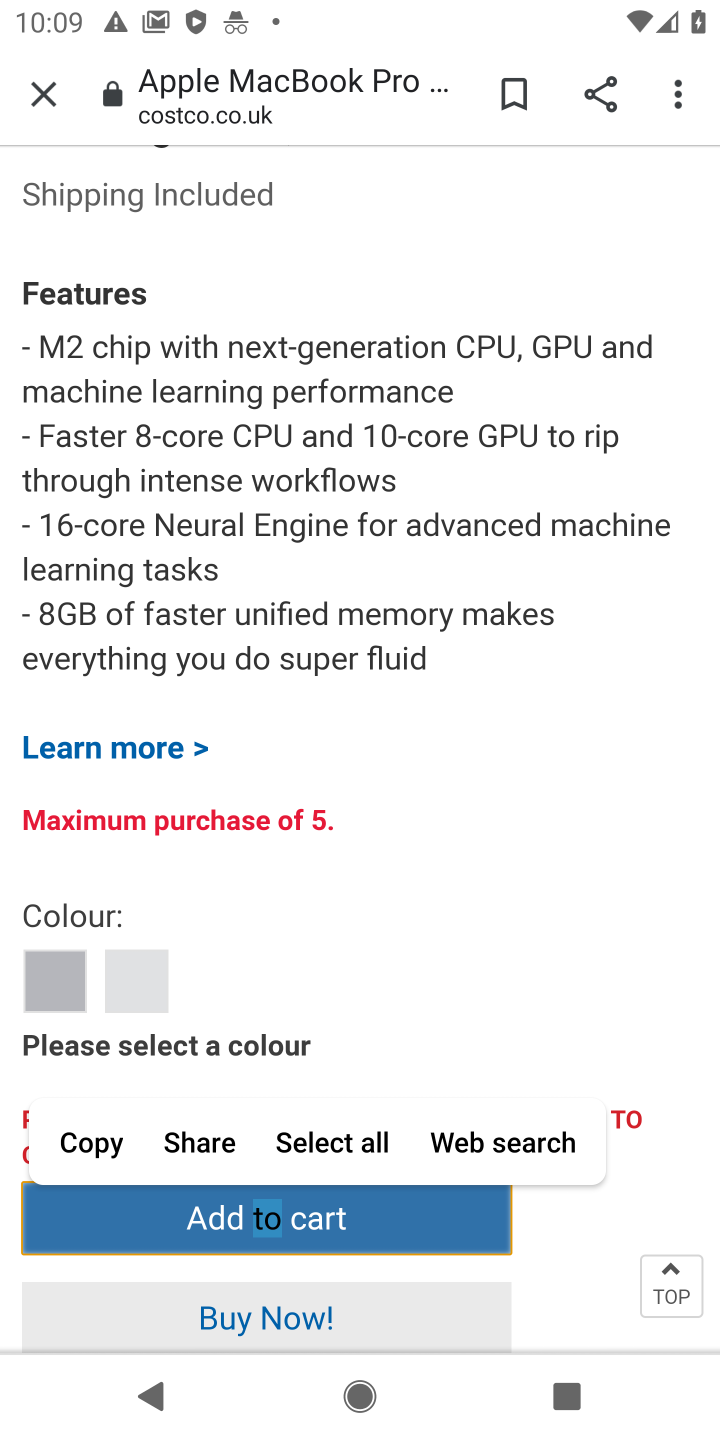
Step 34: click (575, 660)
Your task to perform on an android device: Clear all items from cart on costco.com. Search for macbook pro 13 inch on costco.com, select the first entry, add it to the cart, then select checkout. Image 35: 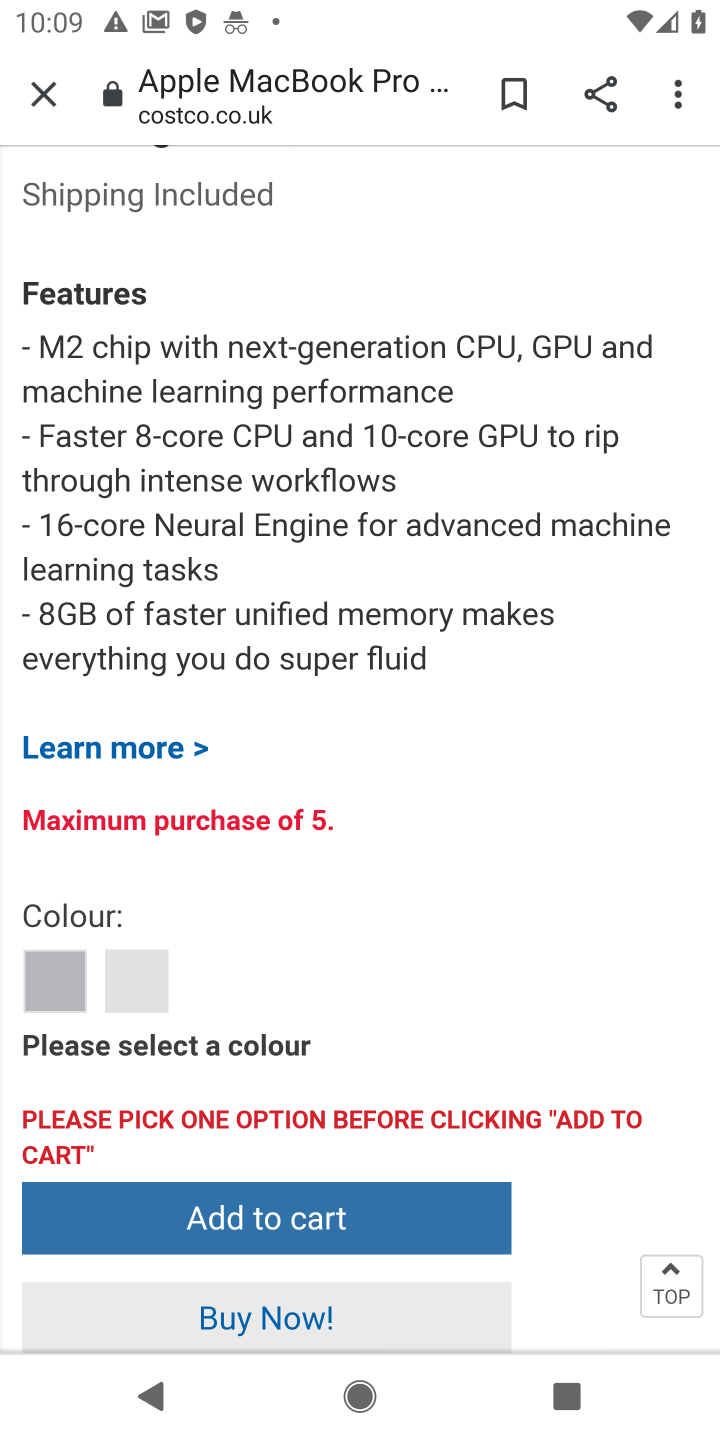
Step 35: click (362, 1222)
Your task to perform on an android device: Clear all items from cart on costco.com. Search for macbook pro 13 inch on costco.com, select the first entry, add it to the cart, then select checkout. Image 36: 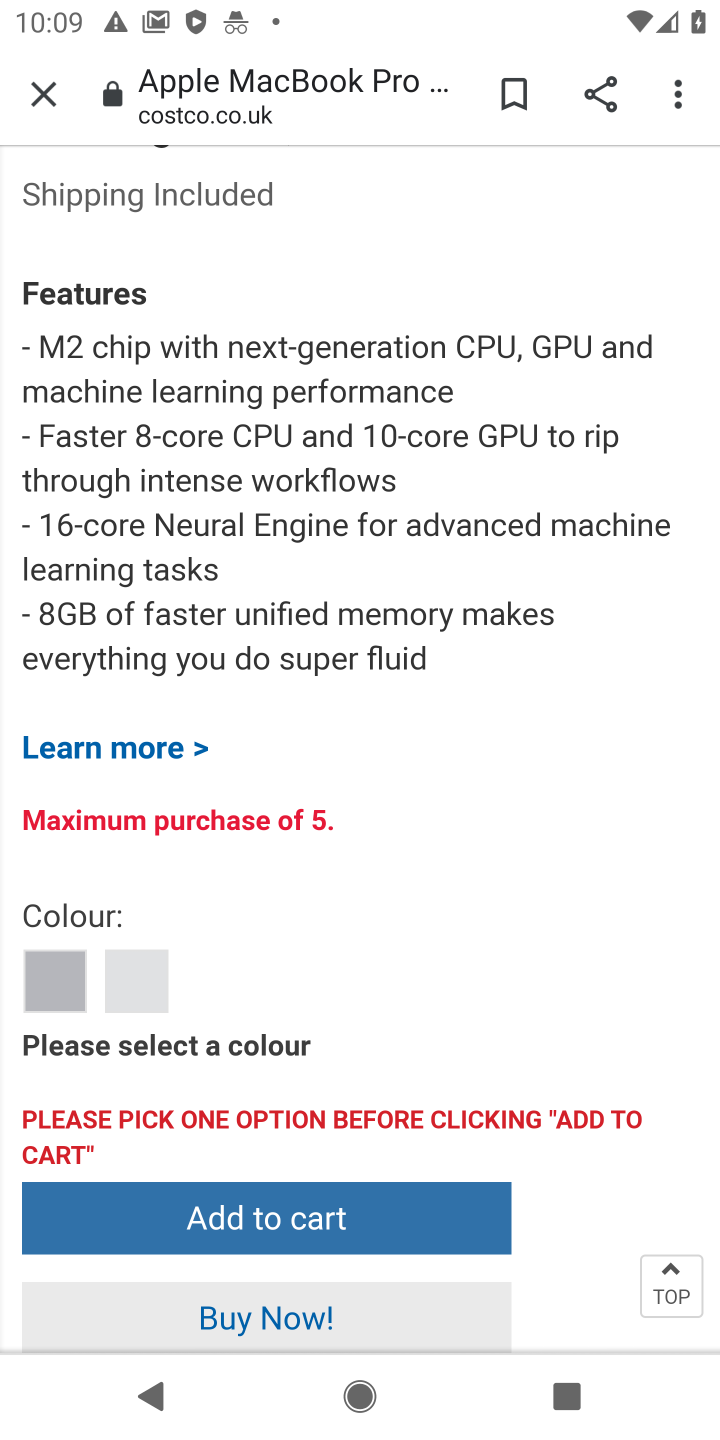
Step 36: click (362, 1222)
Your task to perform on an android device: Clear all items from cart on costco.com. Search for macbook pro 13 inch on costco.com, select the first entry, add it to the cart, then select checkout. Image 37: 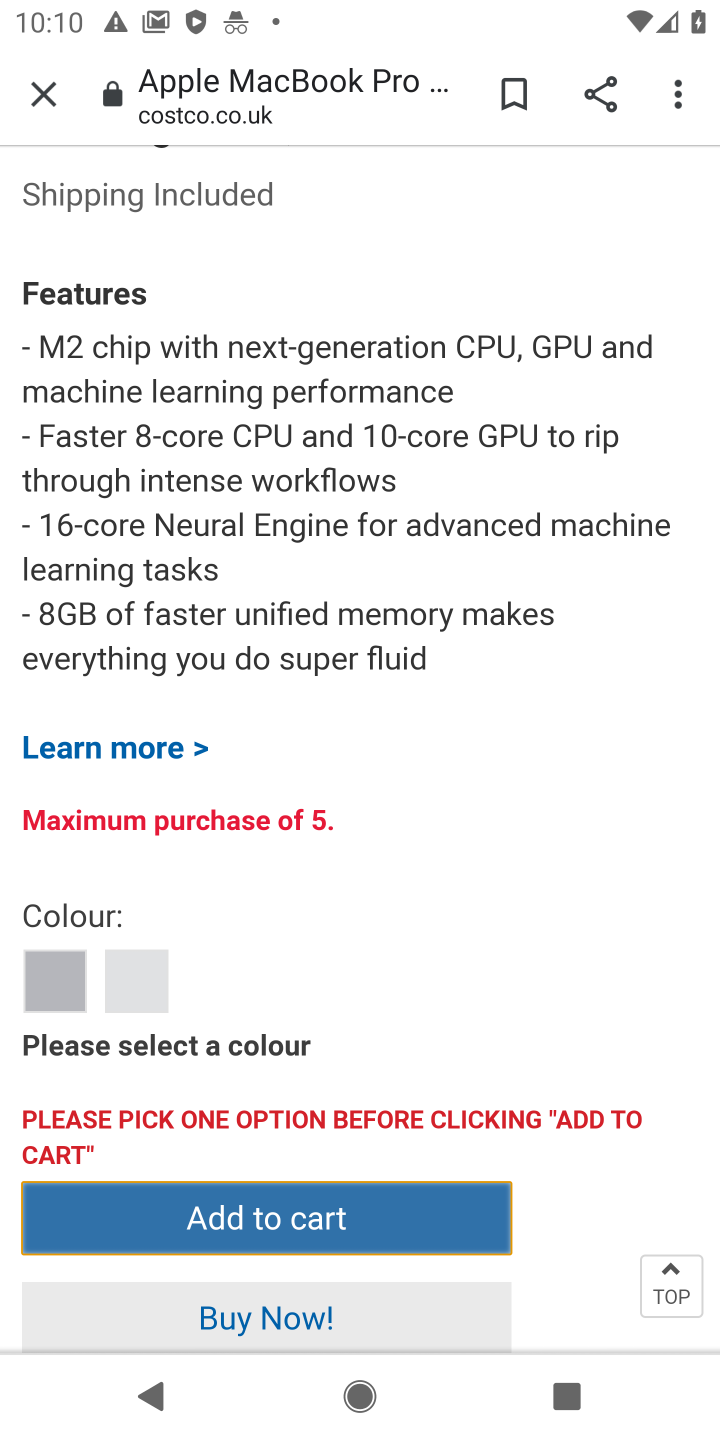
Step 37: click (362, 1222)
Your task to perform on an android device: Clear all items from cart on costco.com. Search for macbook pro 13 inch on costco.com, select the first entry, add it to the cart, then select checkout. Image 38: 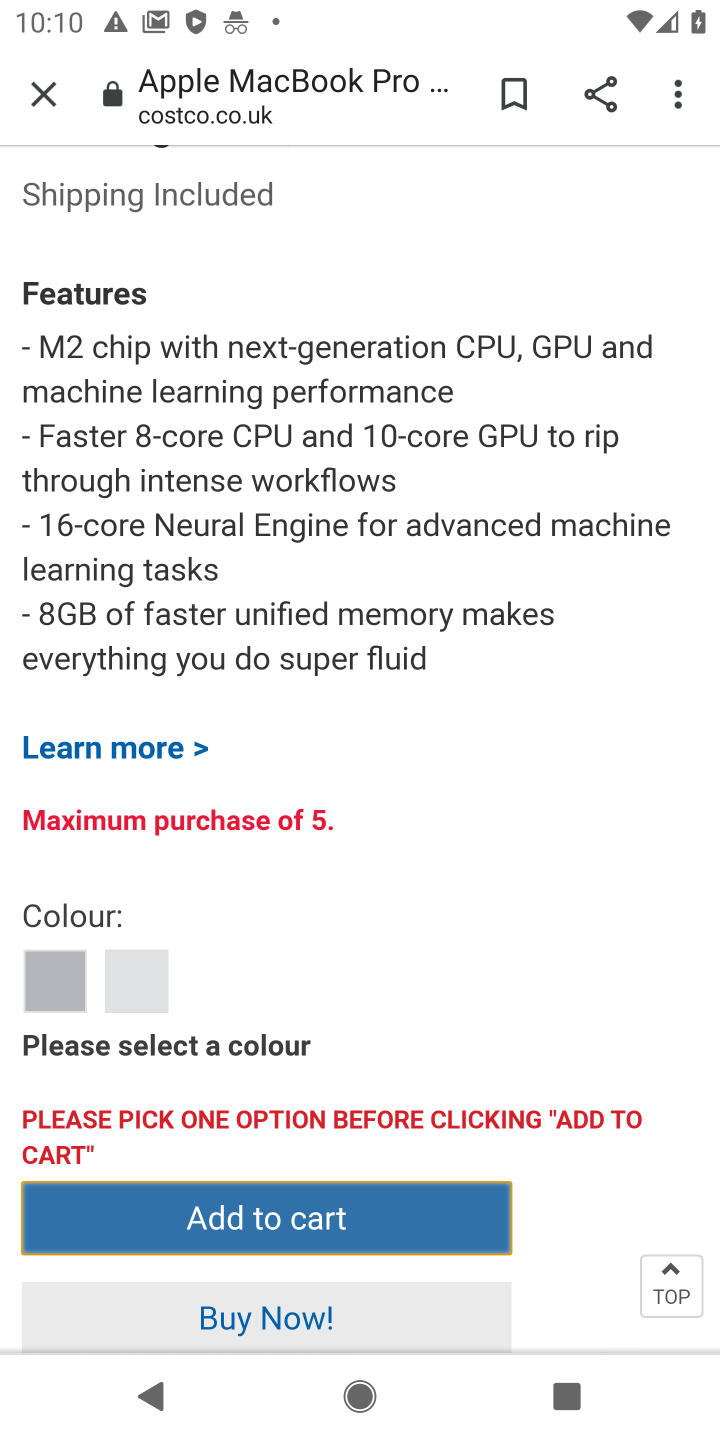
Step 38: task complete